Your task to perform on an android device: Add "usb-a" to the cart on ebay.com, then select checkout. Image 0: 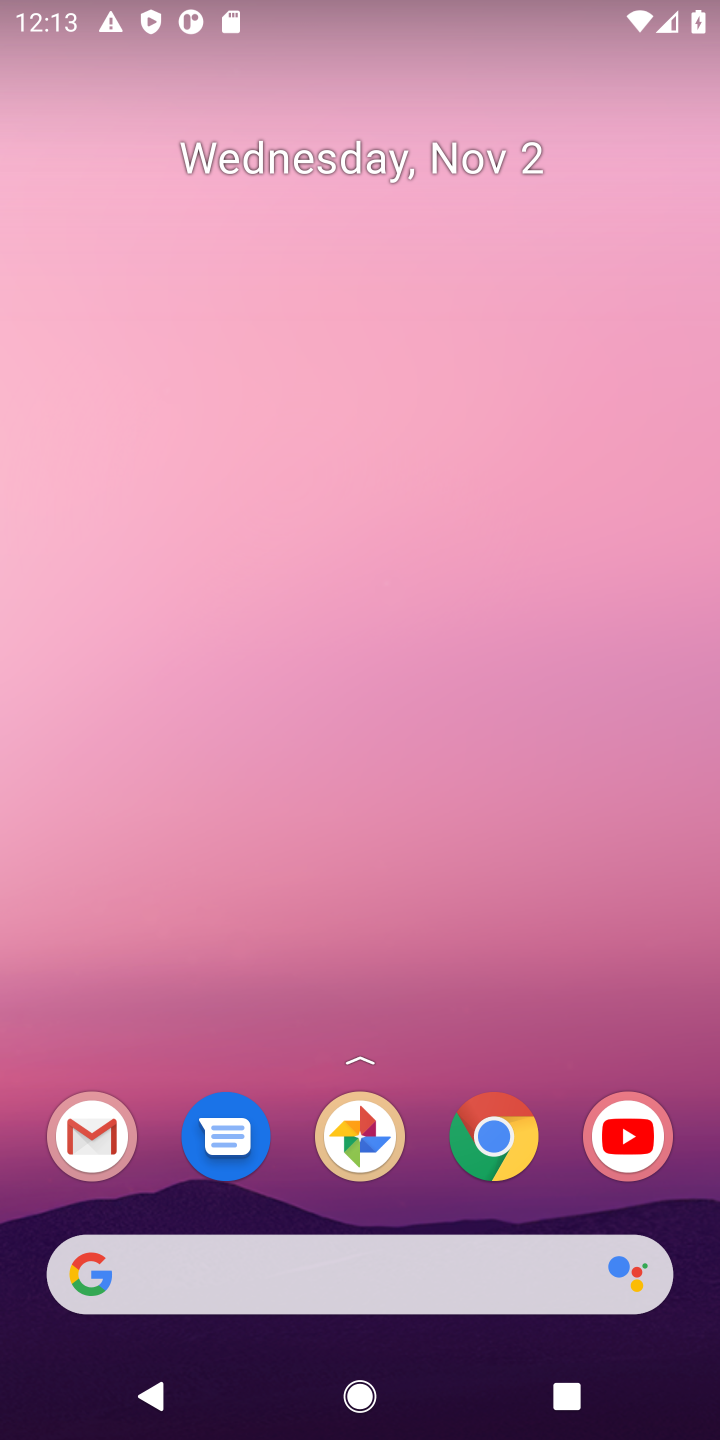
Step 0: click (465, 1134)
Your task to perform on an android device: Add "usb-a" to the cart on ebay.com, then select checkout. Image 1: 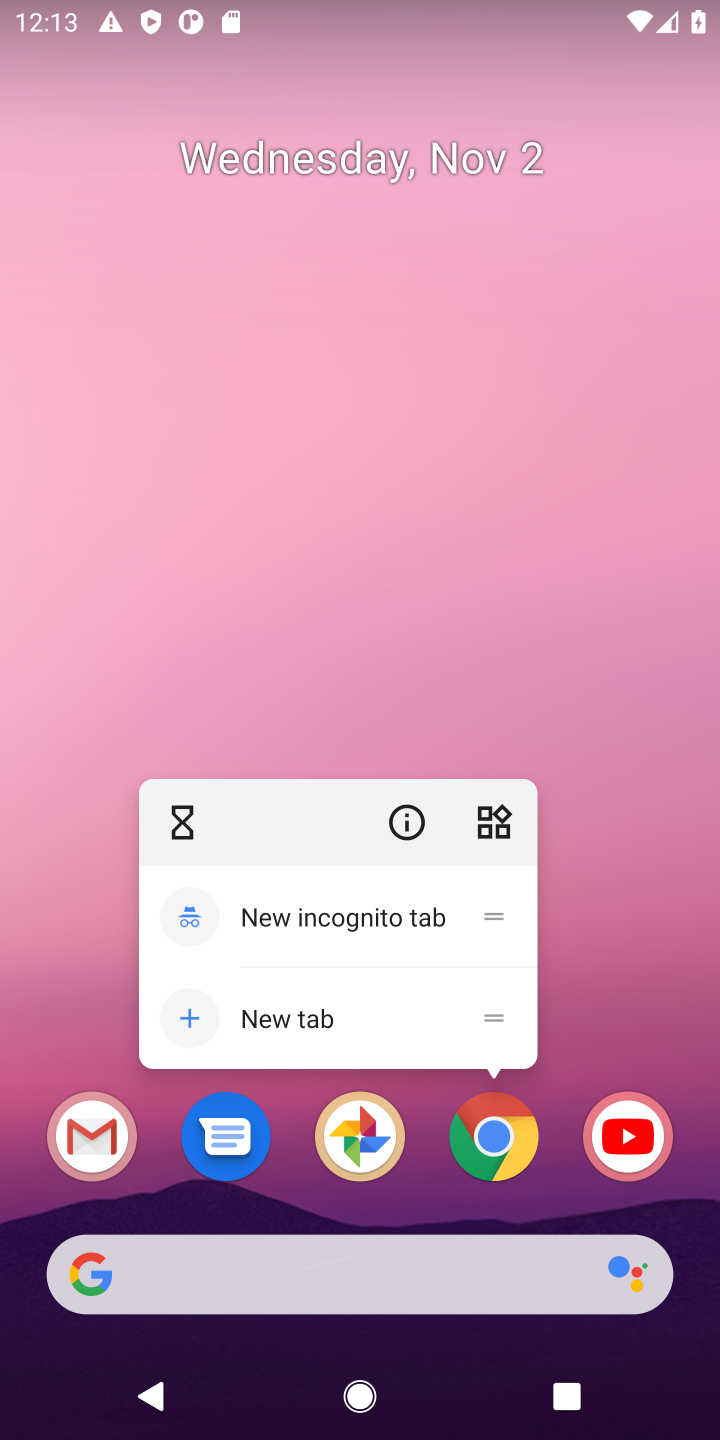
Step 1: click (485, 1140)
Your task to perform on an android device: Add "usb-a" to the cart on ebay.com, then select checkout. Image 2: 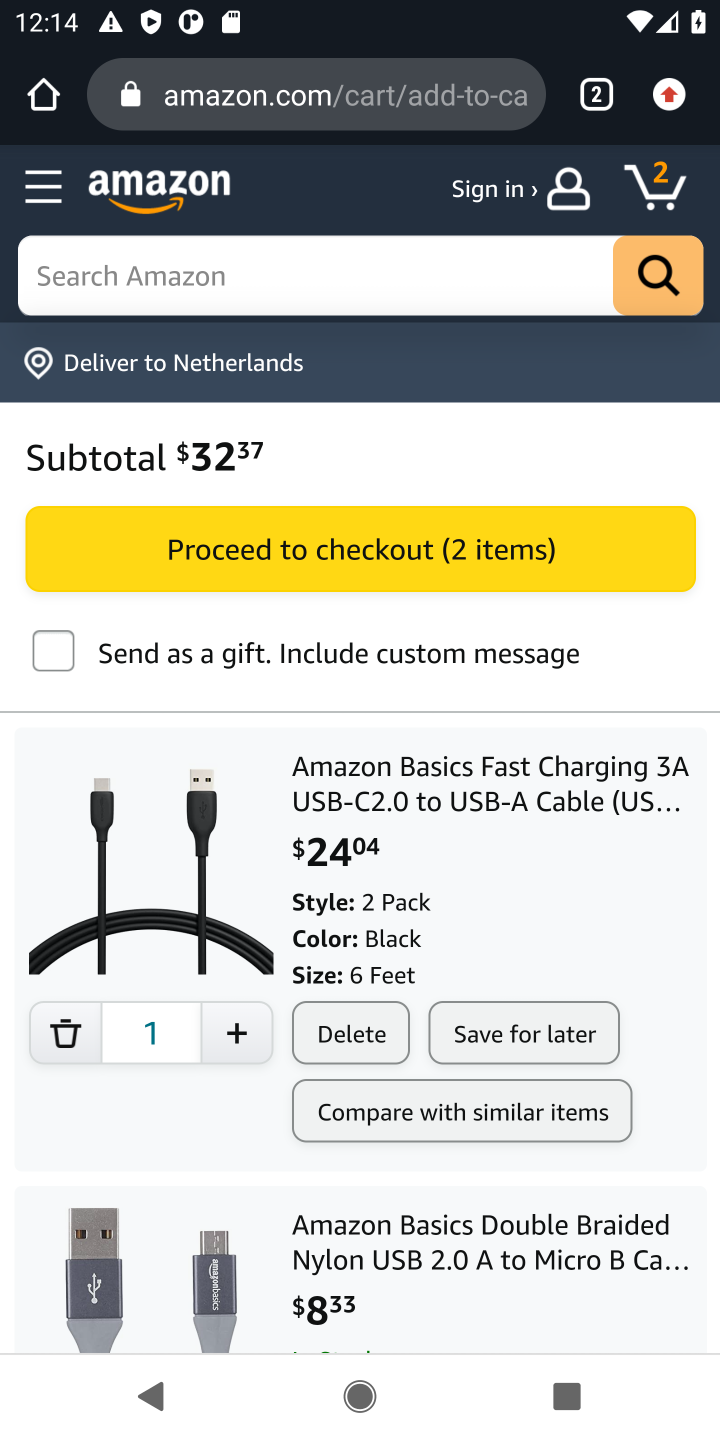
Step 2: click (244, 74)
Your task to perform on an android device: Add "usb-a" to the cart on ebay.com, then select checkout. Image 3: 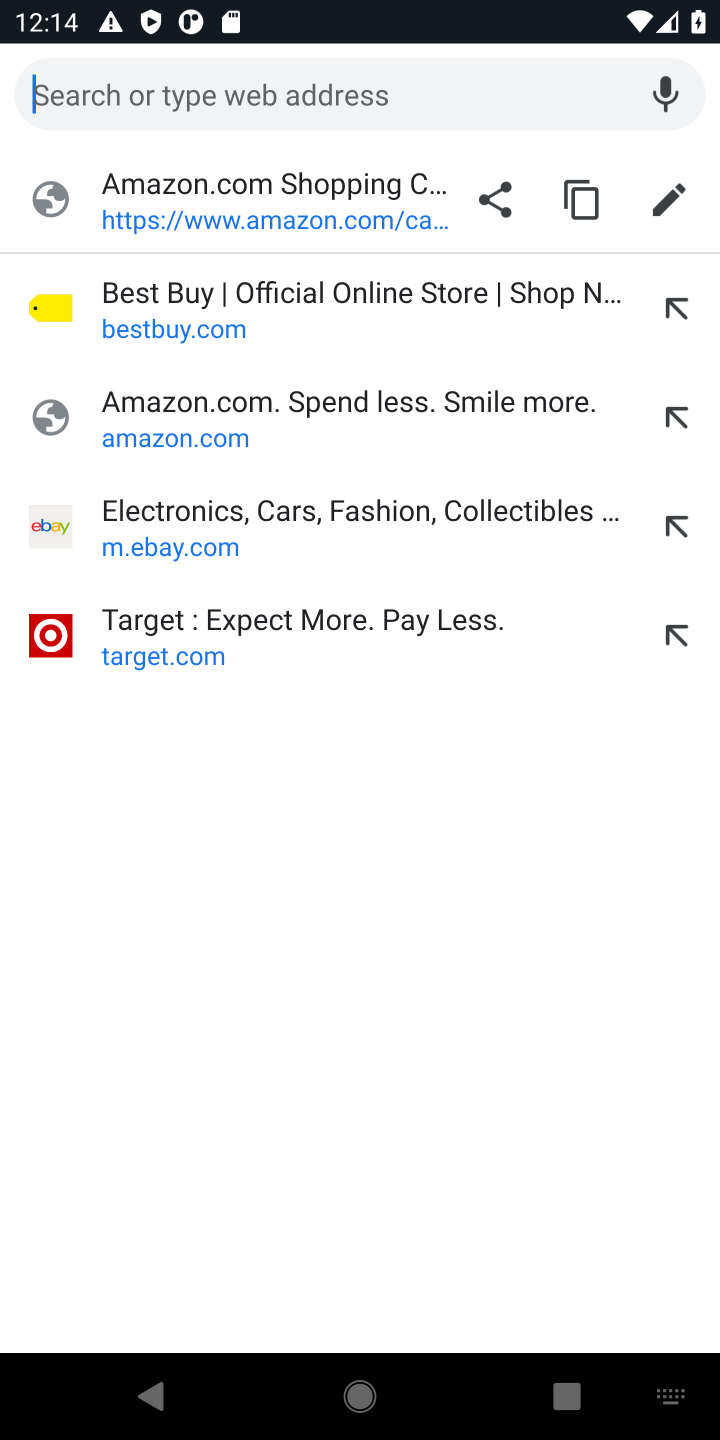
Step 3: click (250, 520)
Your task to perform on an android device: Add "usb-a" to the cart on ebay.com, then select checkout. Image 4: 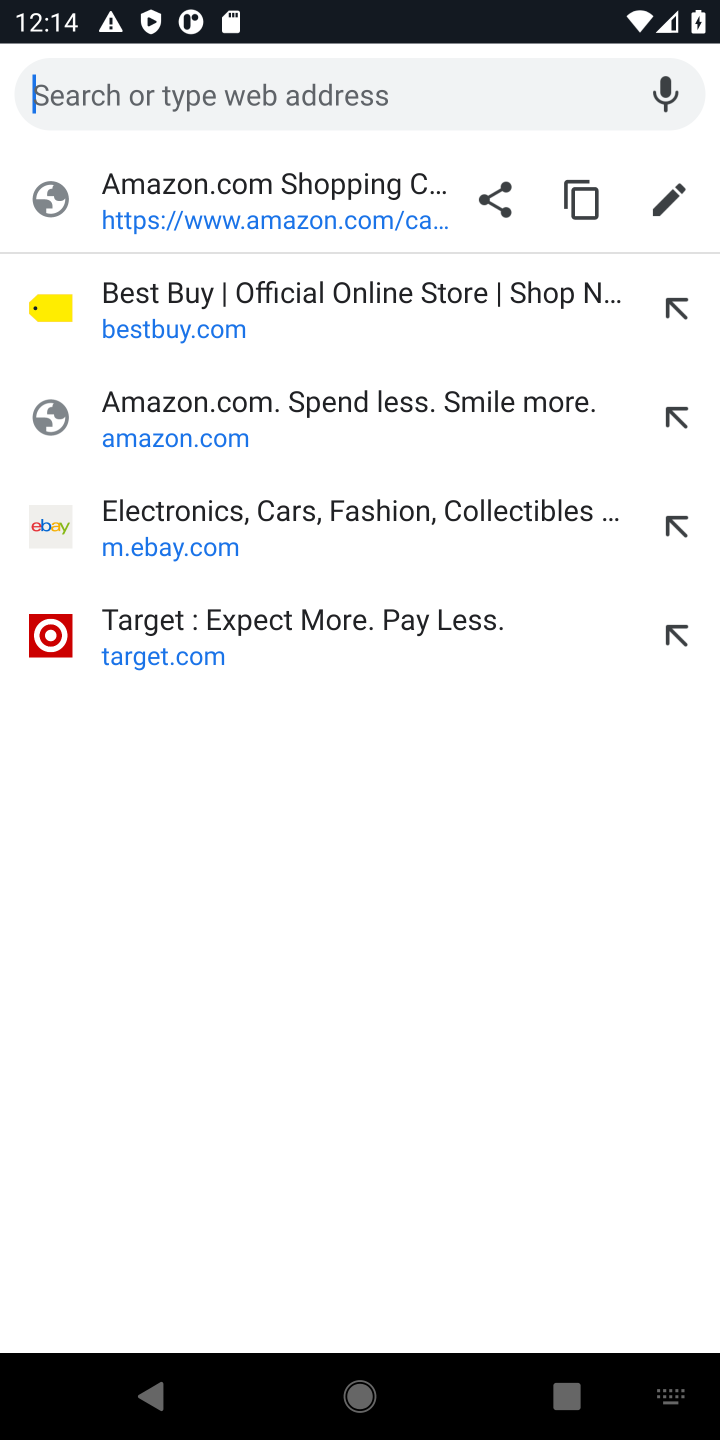
Step 4: type "ebay.com"
Your task to perform on an android device: Add "usb-a" to the cart on ebay.com, then select checkout. Image 5: 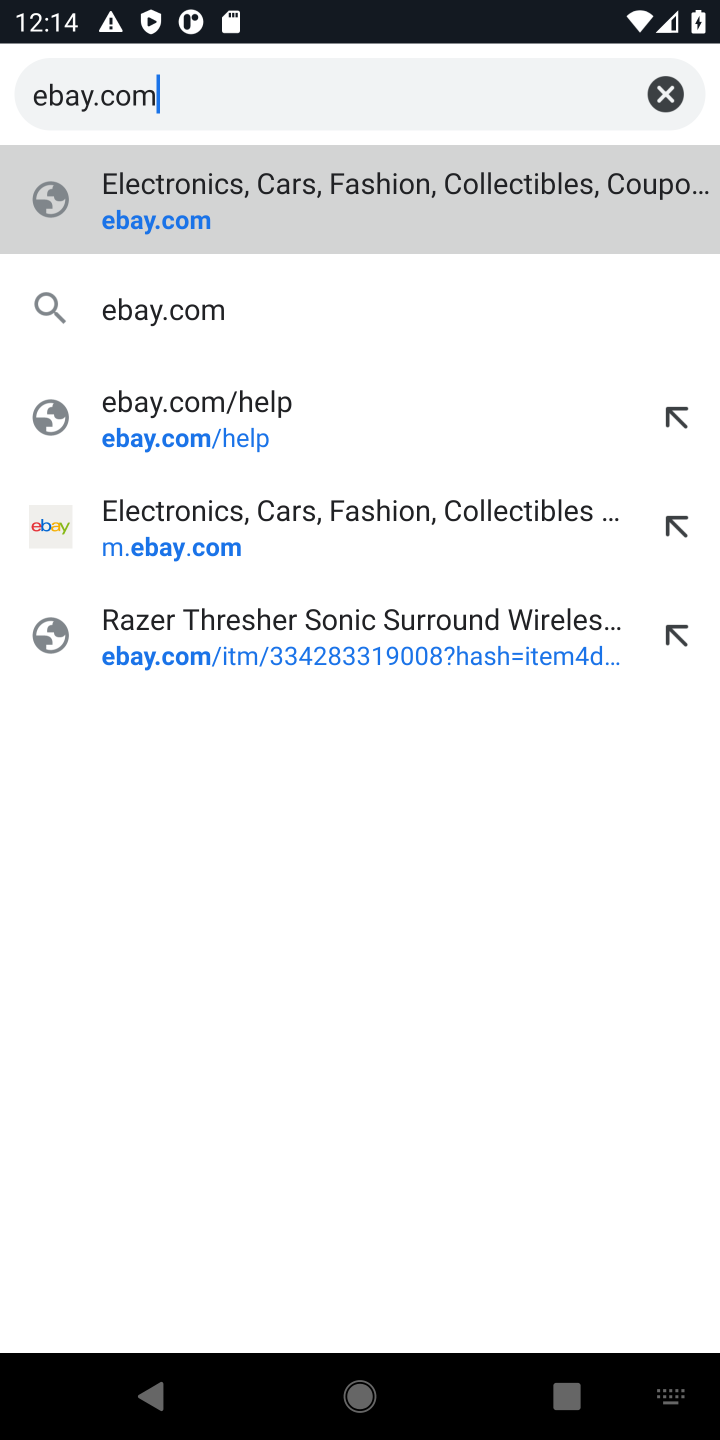
Step 5: click (390, 204)
Your task to perform on an android device: Add "usb-a" to the cart on ebay.com, then select checkout. Image 6: 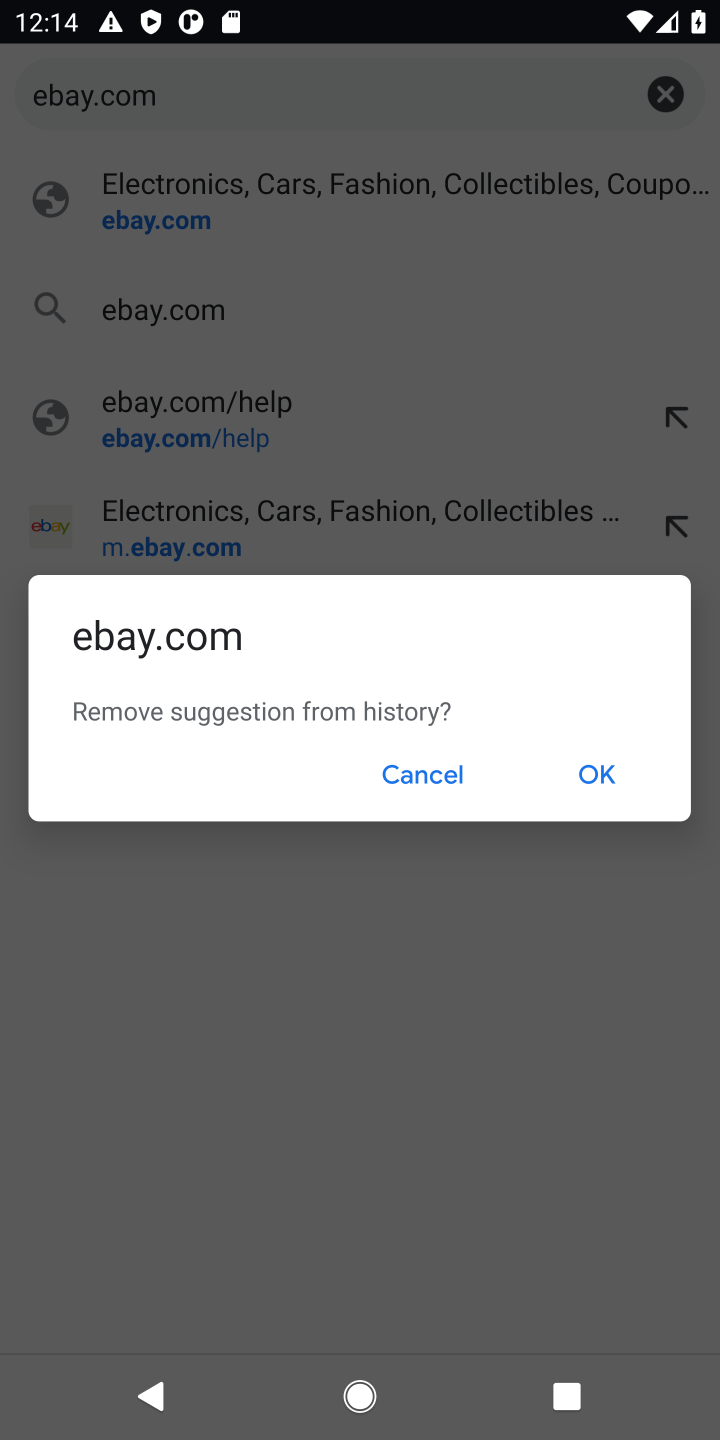
Step 6: click (548, 774)
Your task to perform on an android device: Add "usb-a" to the cart on ebay.com, then select checkout. Image 7: 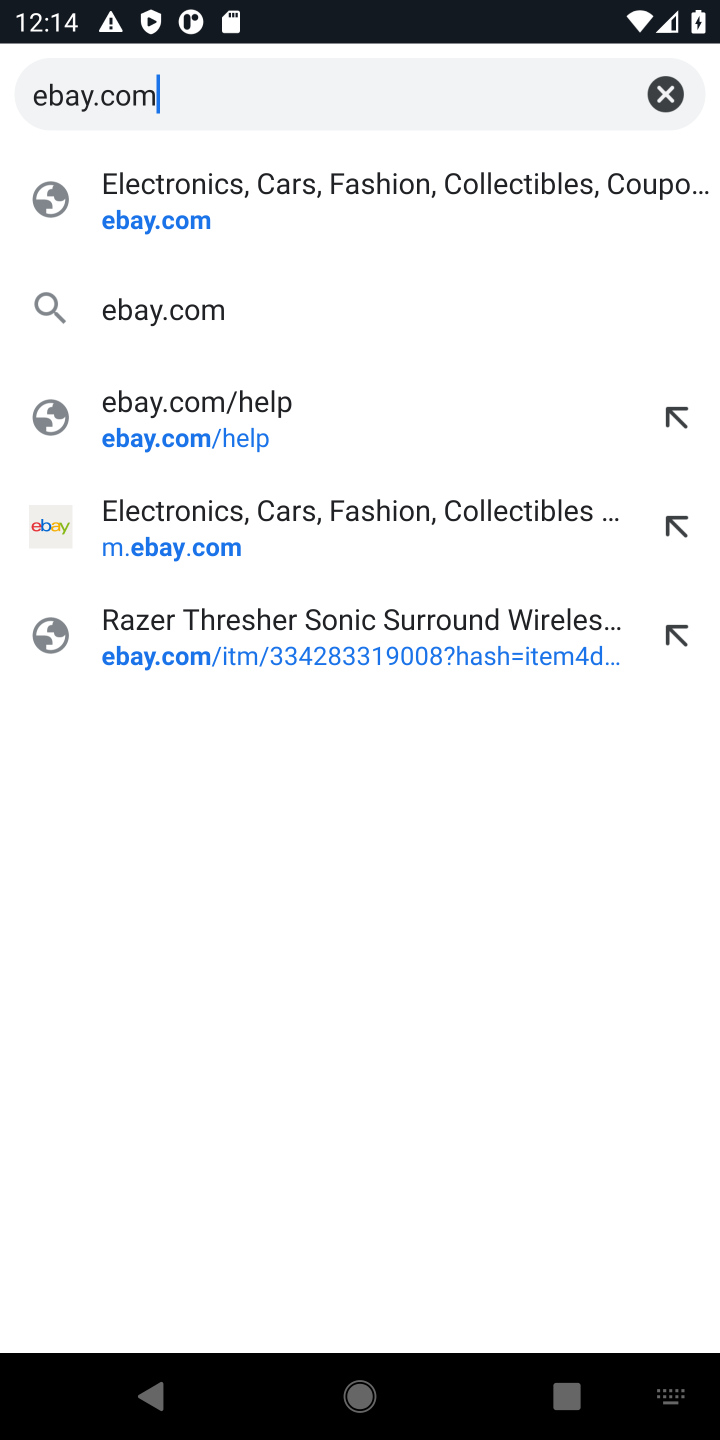
Step 7: click (205, 217)
Your task to perform on an android device: Add "usb-a" to the cart on ebay.com, then select checkout. Image 8: 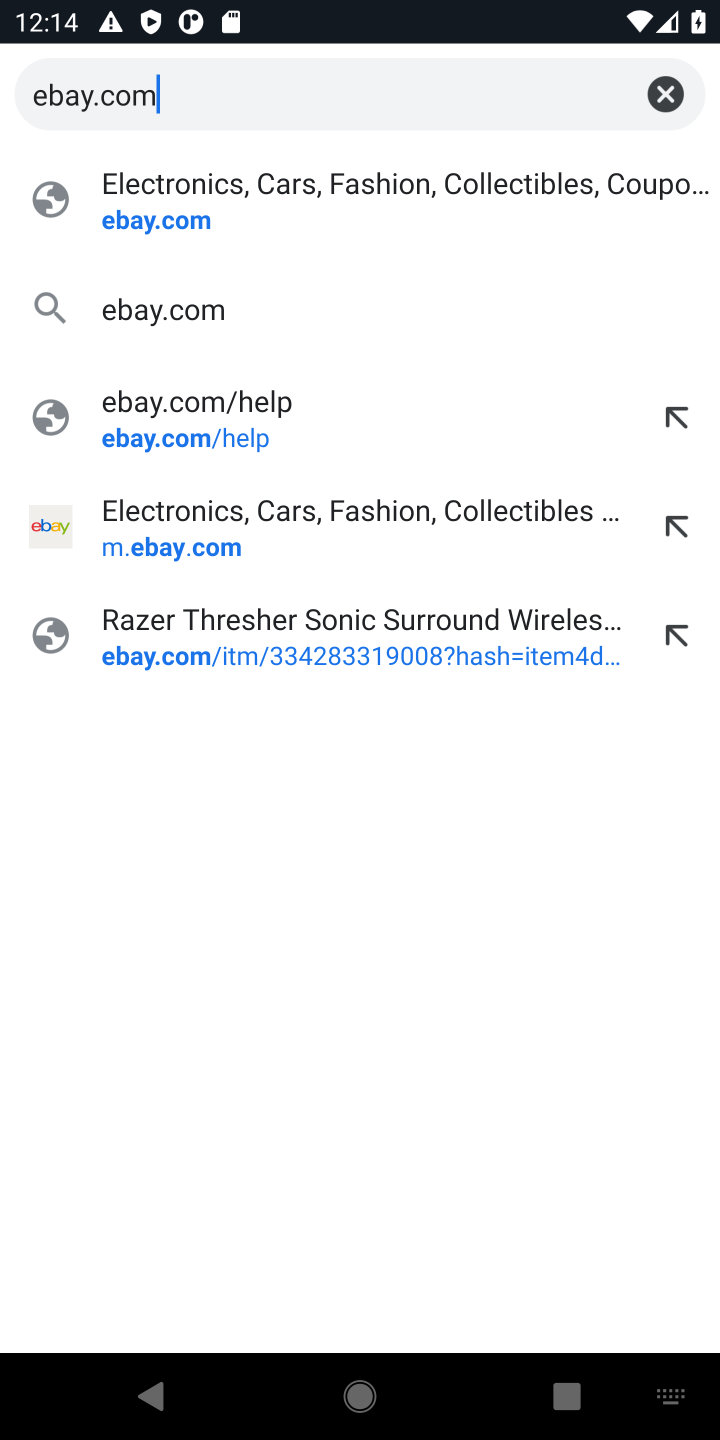
Step 8: press enter
Your task to perform on an android device: Add "usb-a" to the cart on ebay.com, then select checkout. Image 9: 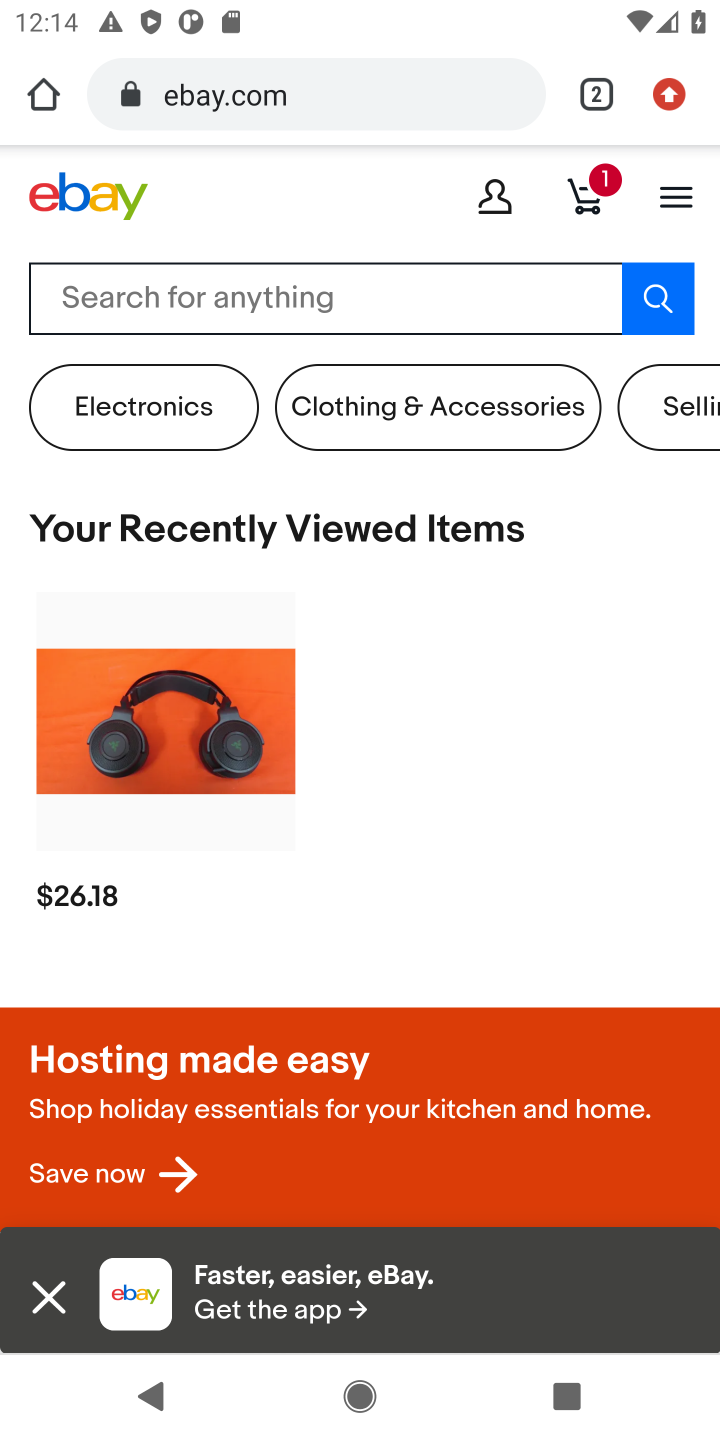
Step 9: click (33, 1291)
Your task to perform on an android device: Add "usb-a" to the cart on ebay.com, then select checkout. Image 10: 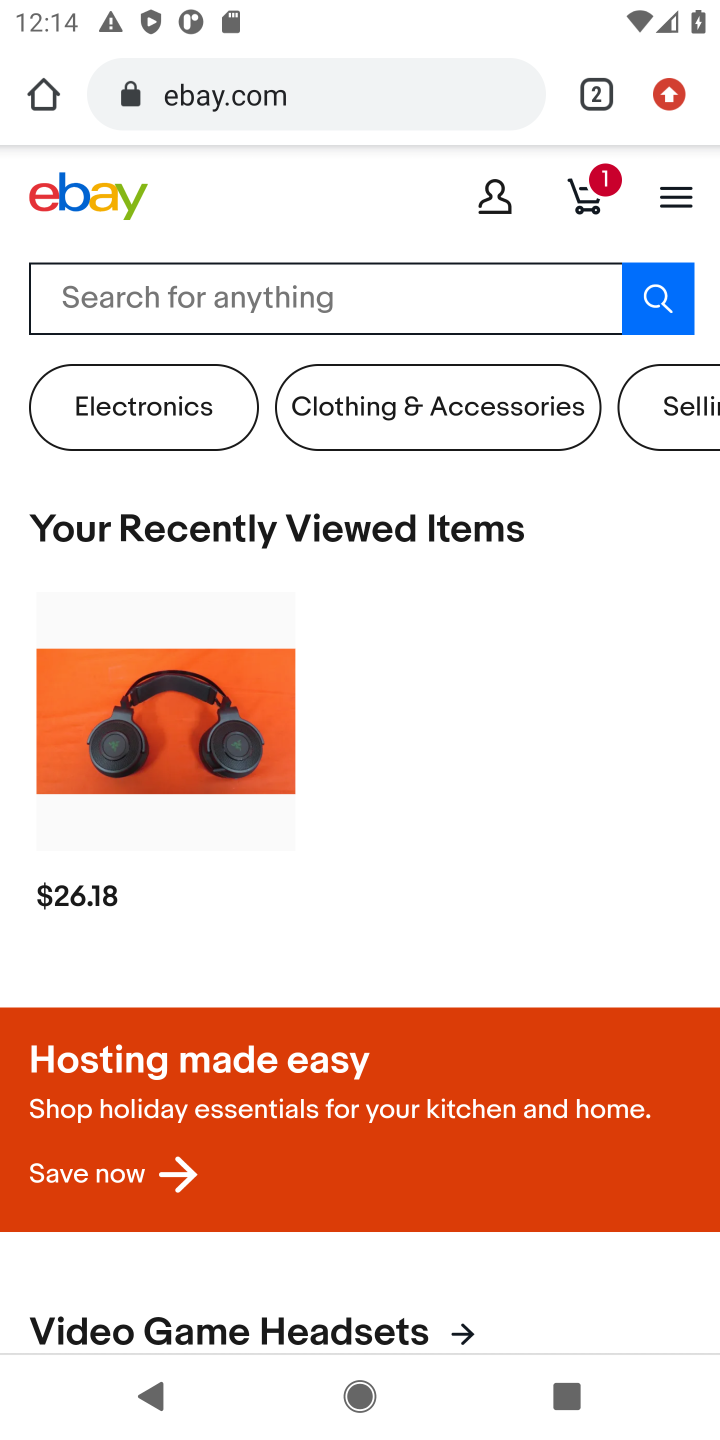
Step 10: click (294, 308)
Your task to perform on an android device: Add "usb-a" to the cart on ebay.com, then select checkout. Image 11: 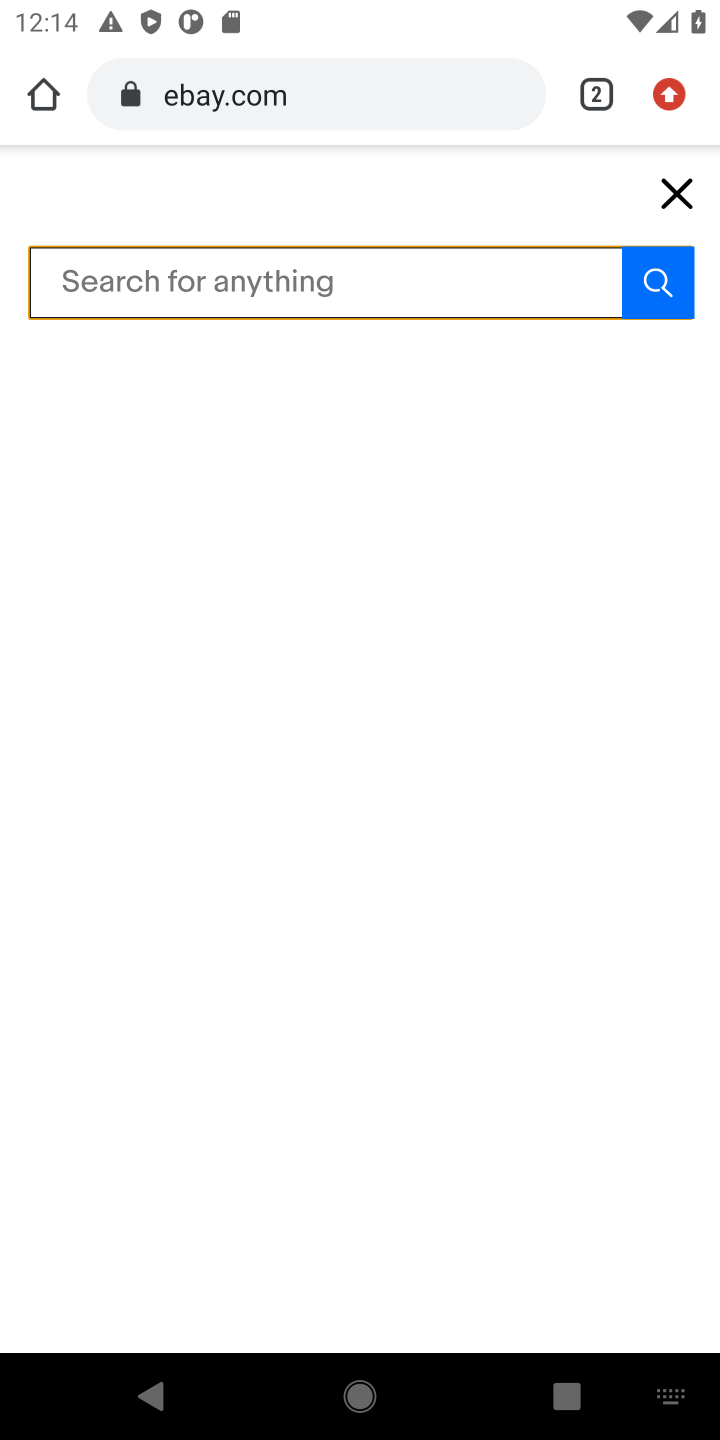
Step 11: type "usb-a"
Your task to perform on an android device: Add "usb-a" to the cart on ebay.com, then select checkout. Image 12: 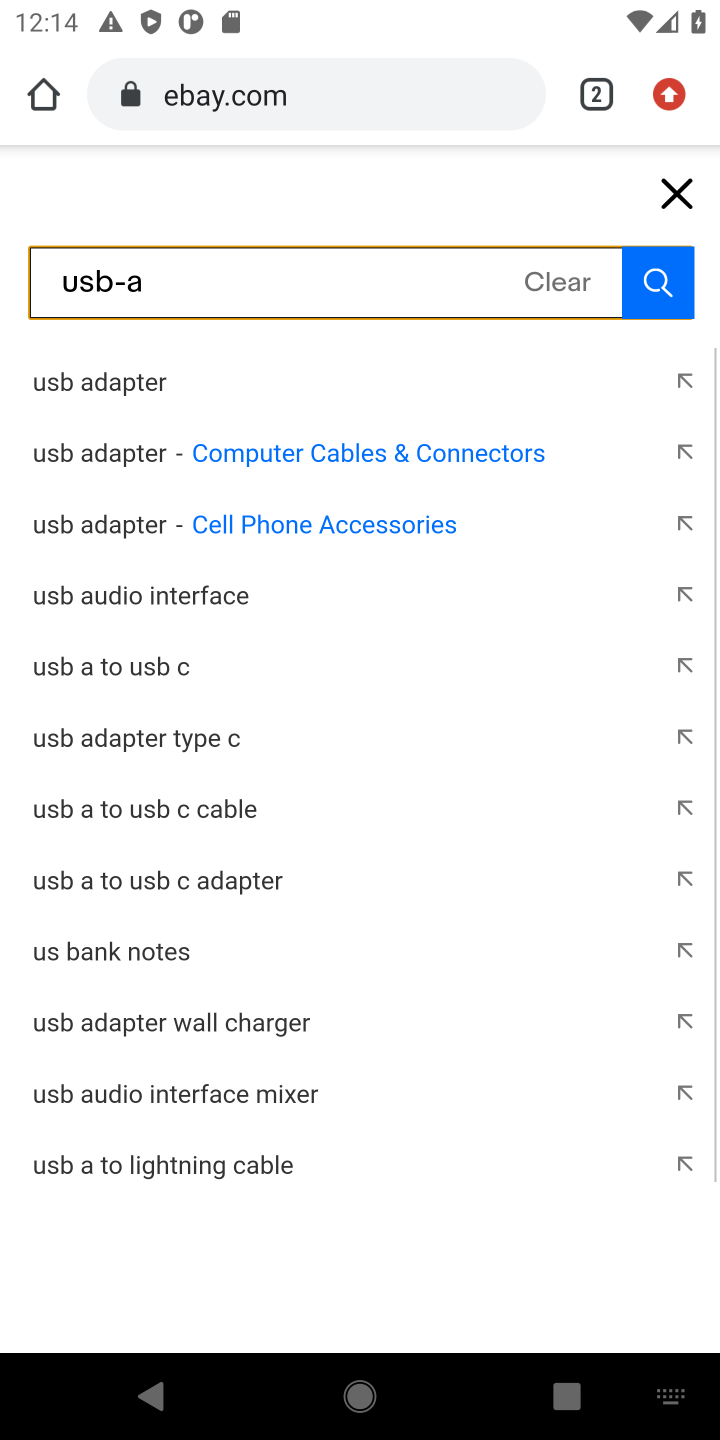
Step 12: type ""
Your task to perform on an android device: Add "usb-a" to the cart on ebay.com, then select checkout. Image 13: 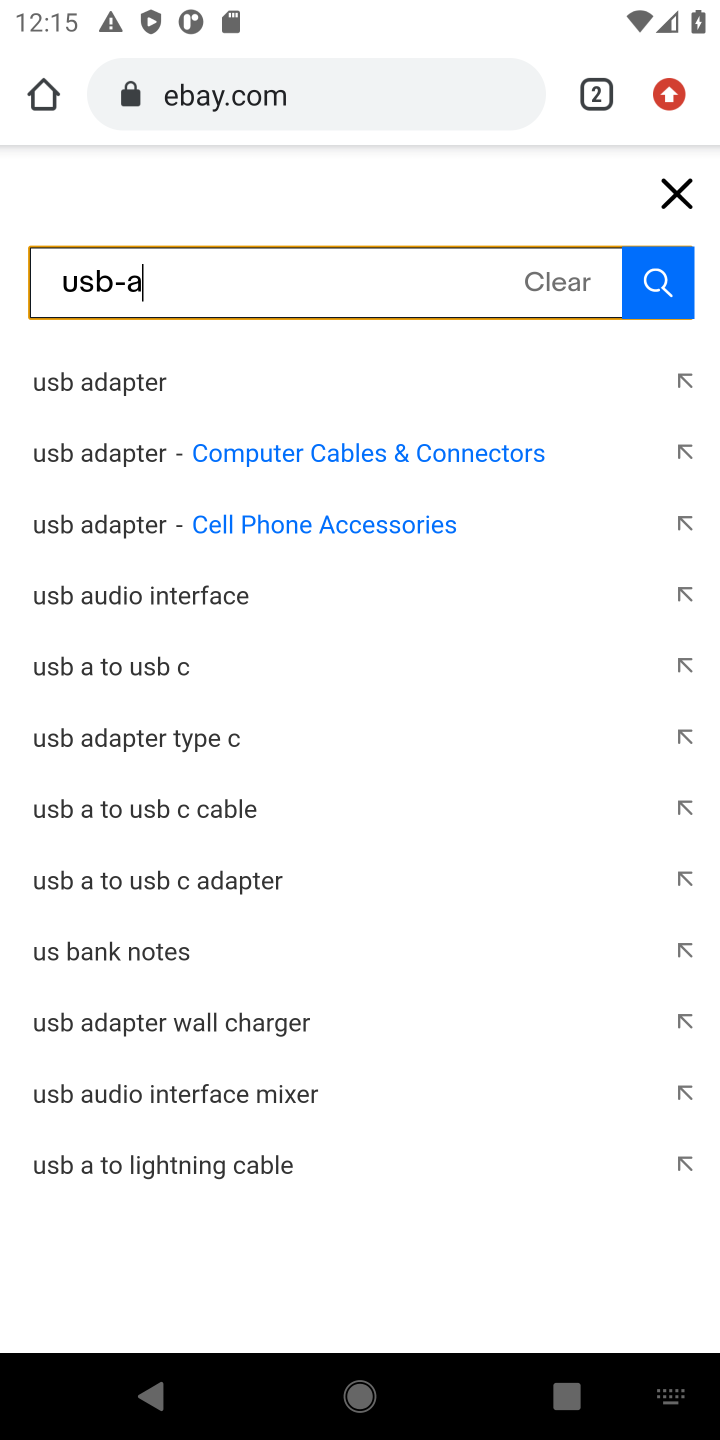
Step 13: click (676, 279)
Your task to perform on an android device: Add "usb-a" to the cart on ebay.com, then select checkout. Image 14: 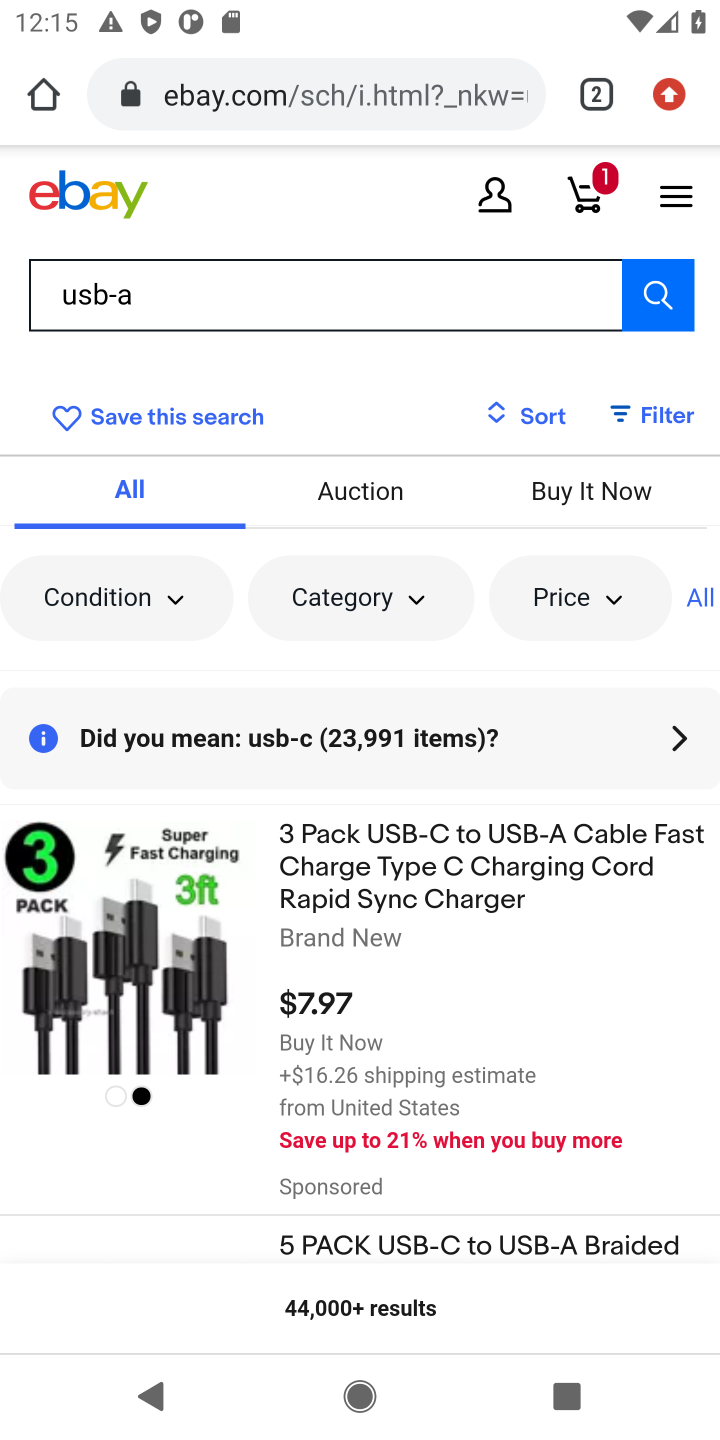
Step 14: drag from (488, 540) to (524, 314)
Your task to perform on an android device: Add "usb-a" to the cart on ebay.com, then select checkout. Image 15: 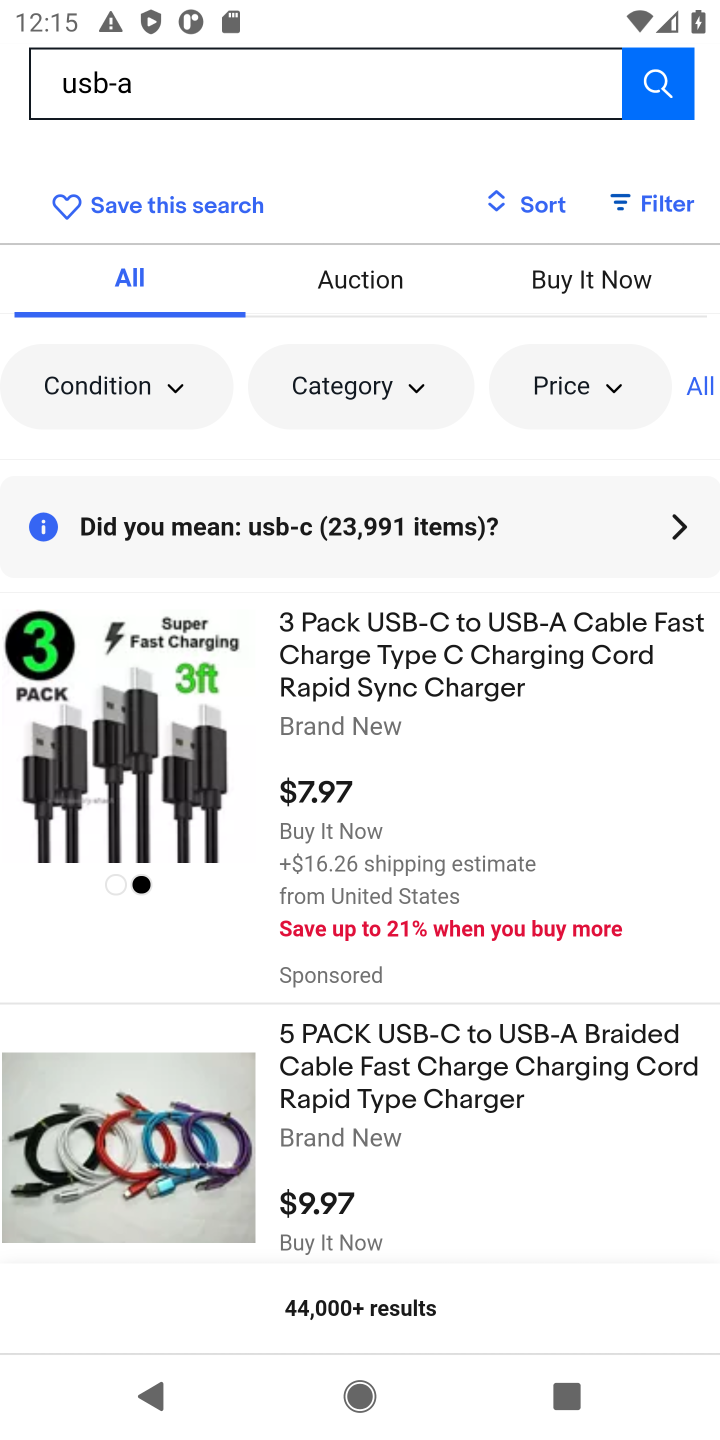
Step 15: click (417, 642)
Your task to perform on an android device: Add "usb-a" to the cart on ebay.com, then select checkout. Image 16: 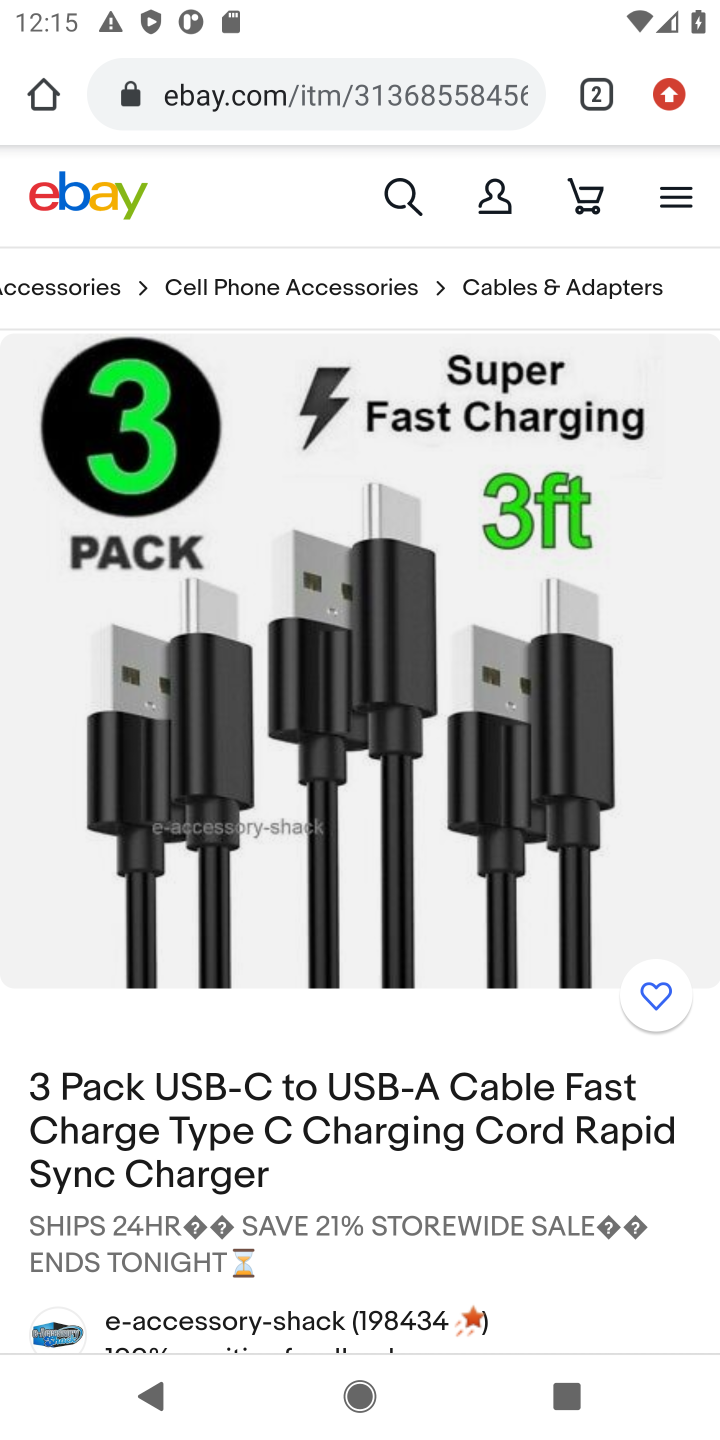
Step 16: drag from (413, 916) to (471, 395)
Your task to perform on an android device: Add "usb-a" to the cart on ebay.com, then select checkout. Image 17: 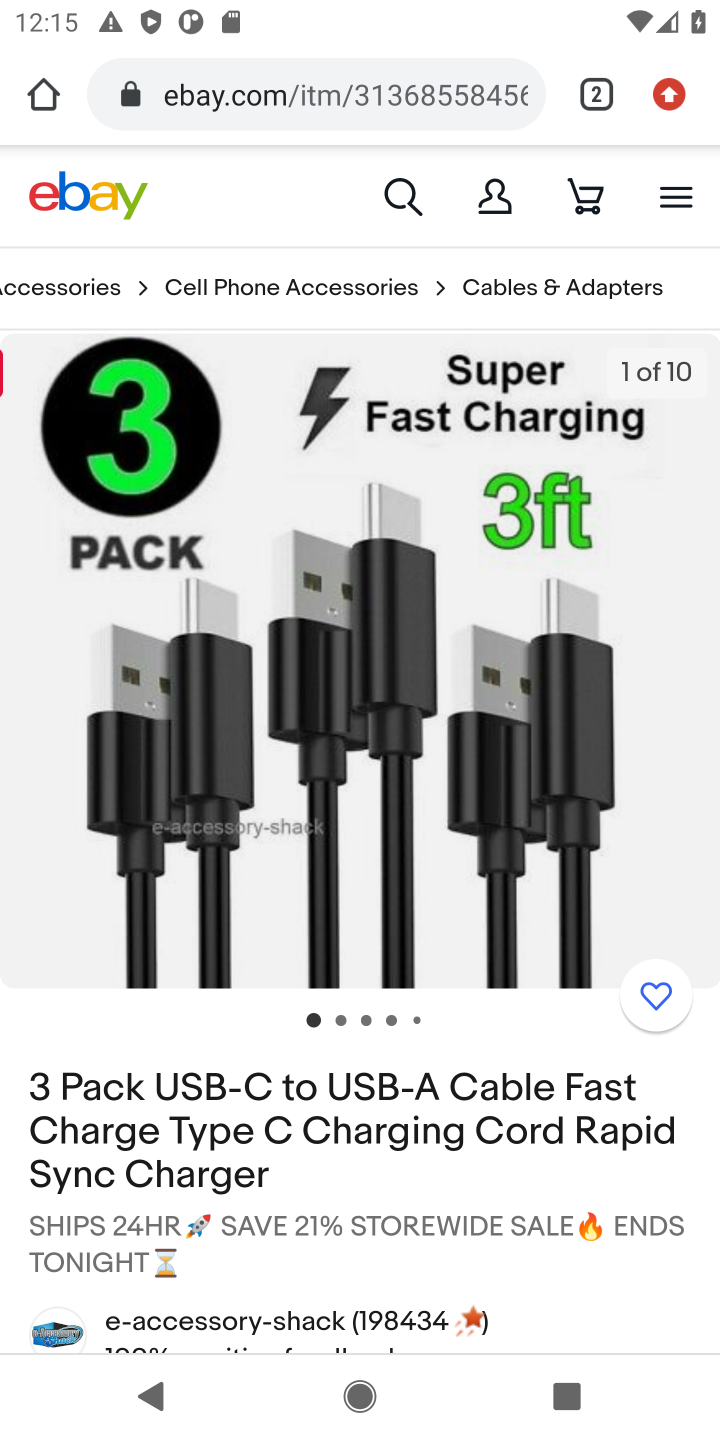
Step 17: drag from (473, 603) to (365, 483)
Your task to perform on an android device: Add "usb-a" to the cart on ebay.com, then select checkout. Image 18: 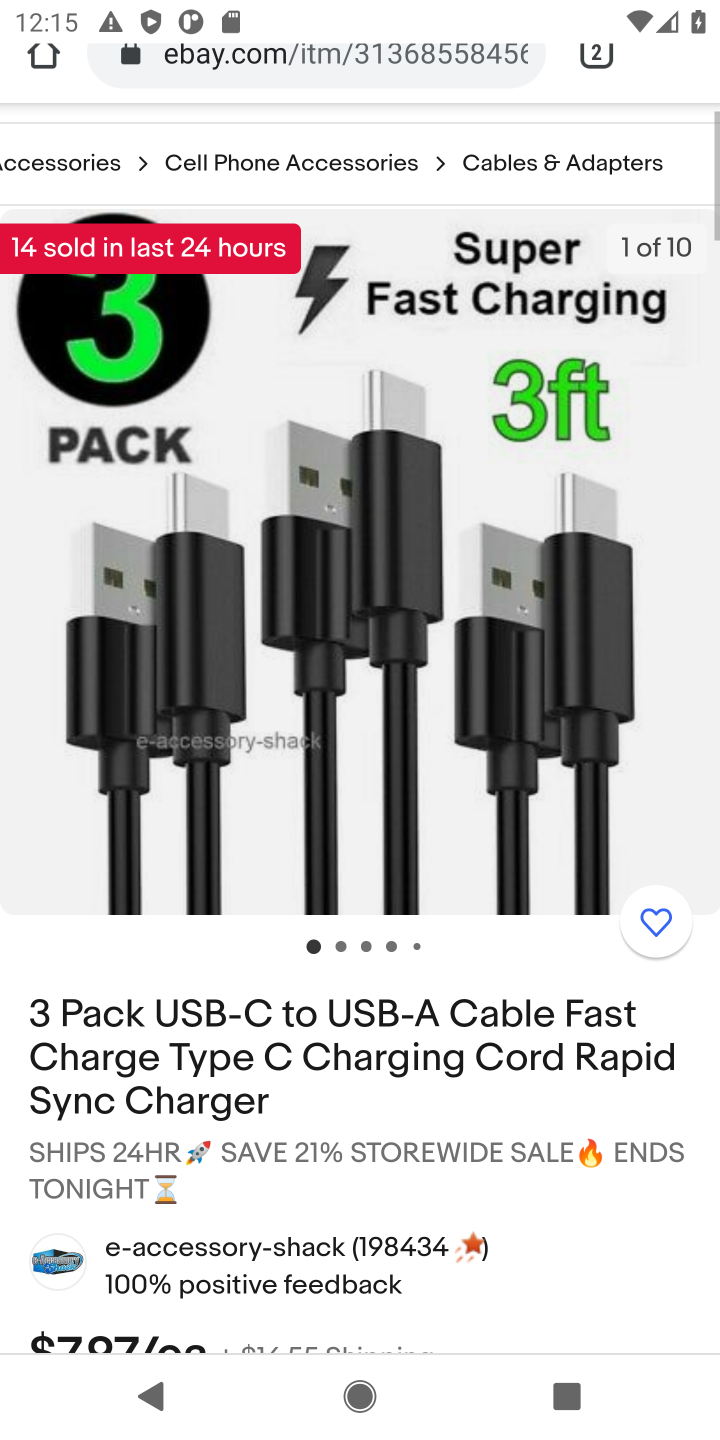
Step 18: drag from (312, 707) to (339, 436)
Your task to perform on an android device: Add "usb-a" to the cart on ebay.com, then select checkout. Image 19: 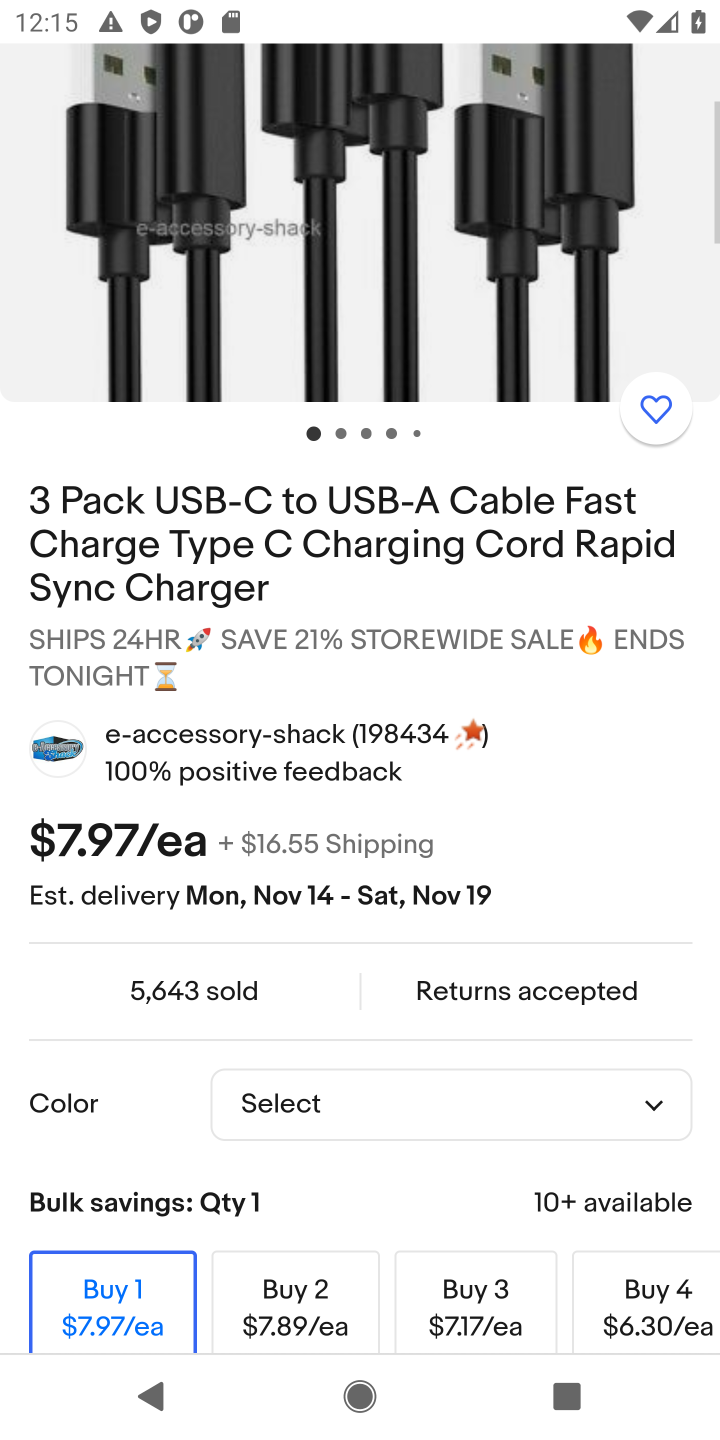
Step 19: click (349, 557)
Your task to perform on an android device: Add "usb-a" to the cart on ebay.com, then select checkout. Image 20: 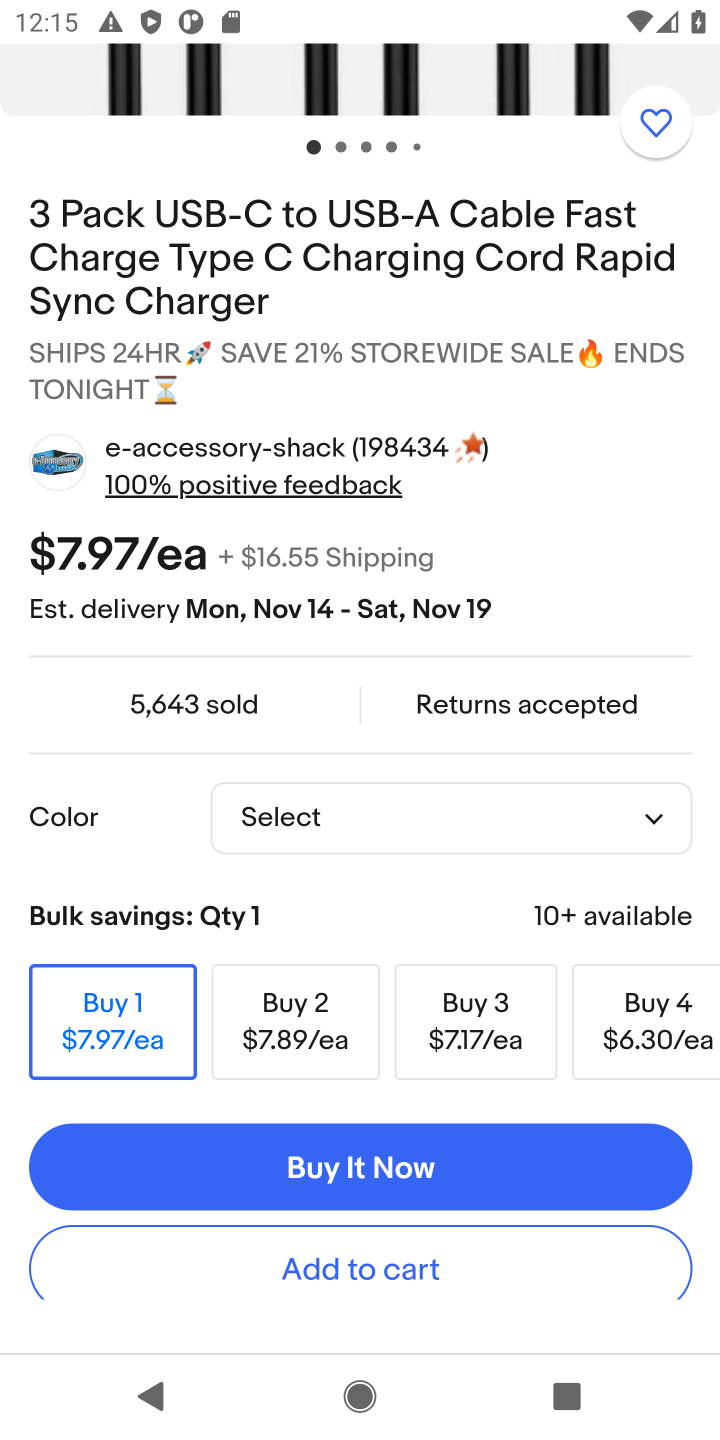
Step 20: click (354, 1168)
Your task to perform on an android device: Add "usb-a" to the cart on ebay.com, then select checkout. Image 21: 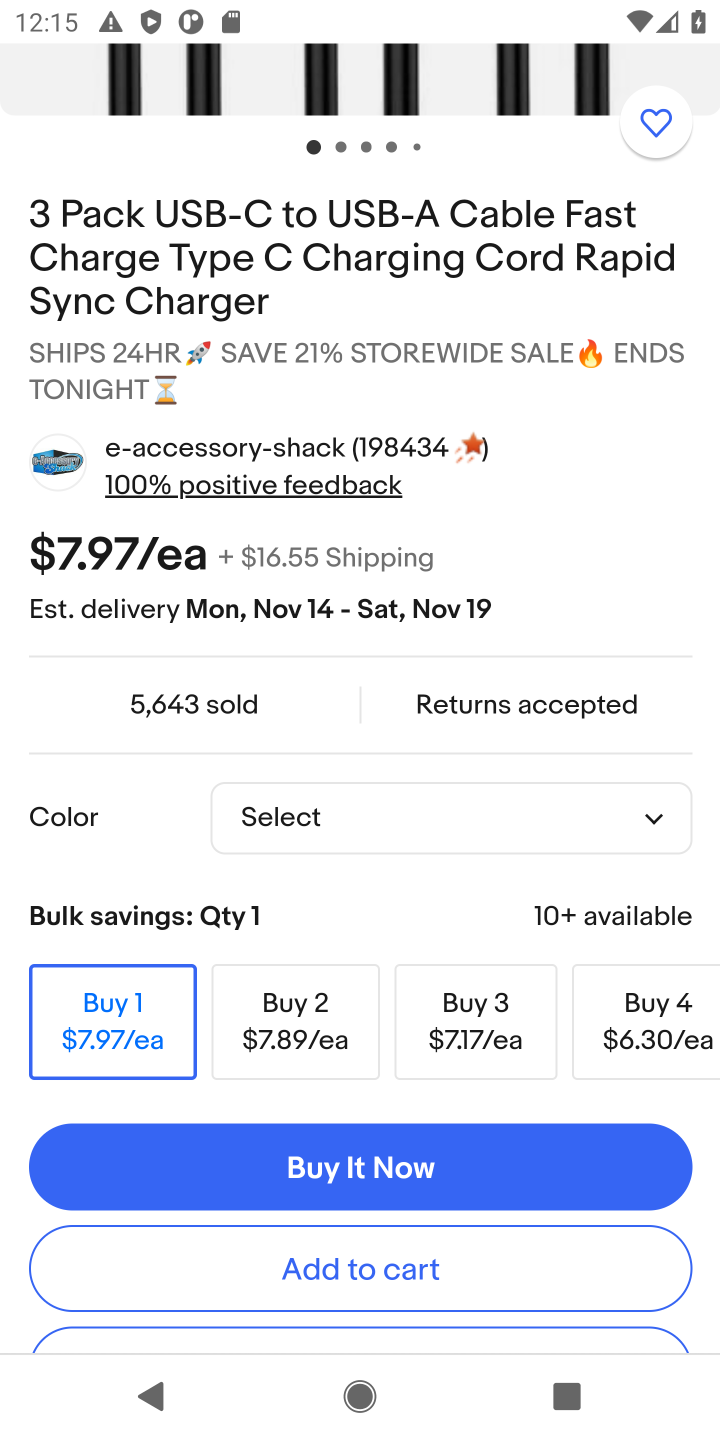
Step 21: click (352, 1275)
Your task to perform on an android device: Add "usb-a" to the cart on ebay.com, then select checkout. Image 22: 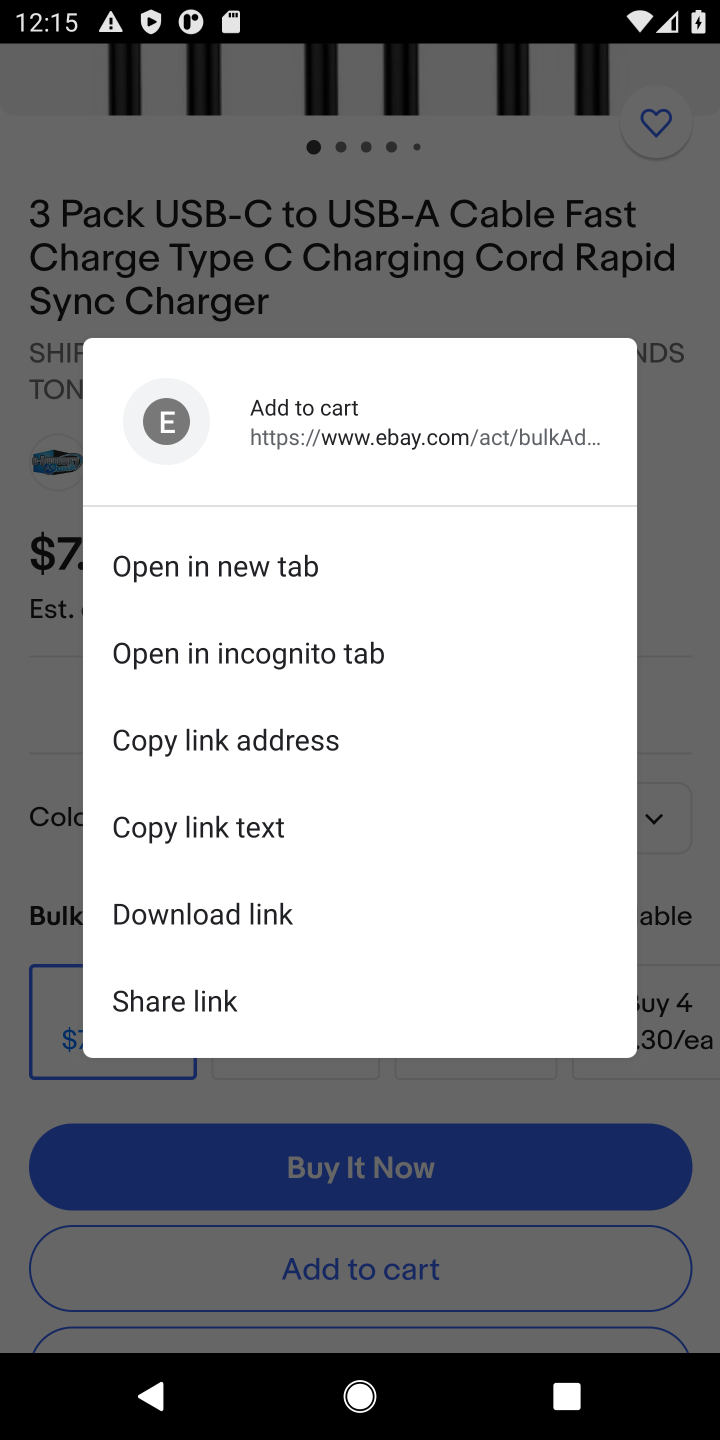
Step 22: click (394, 1252)
Your task to perform on an android device: Add "usb-a" to the cart on ebay.com, then select checkout. Image 23: 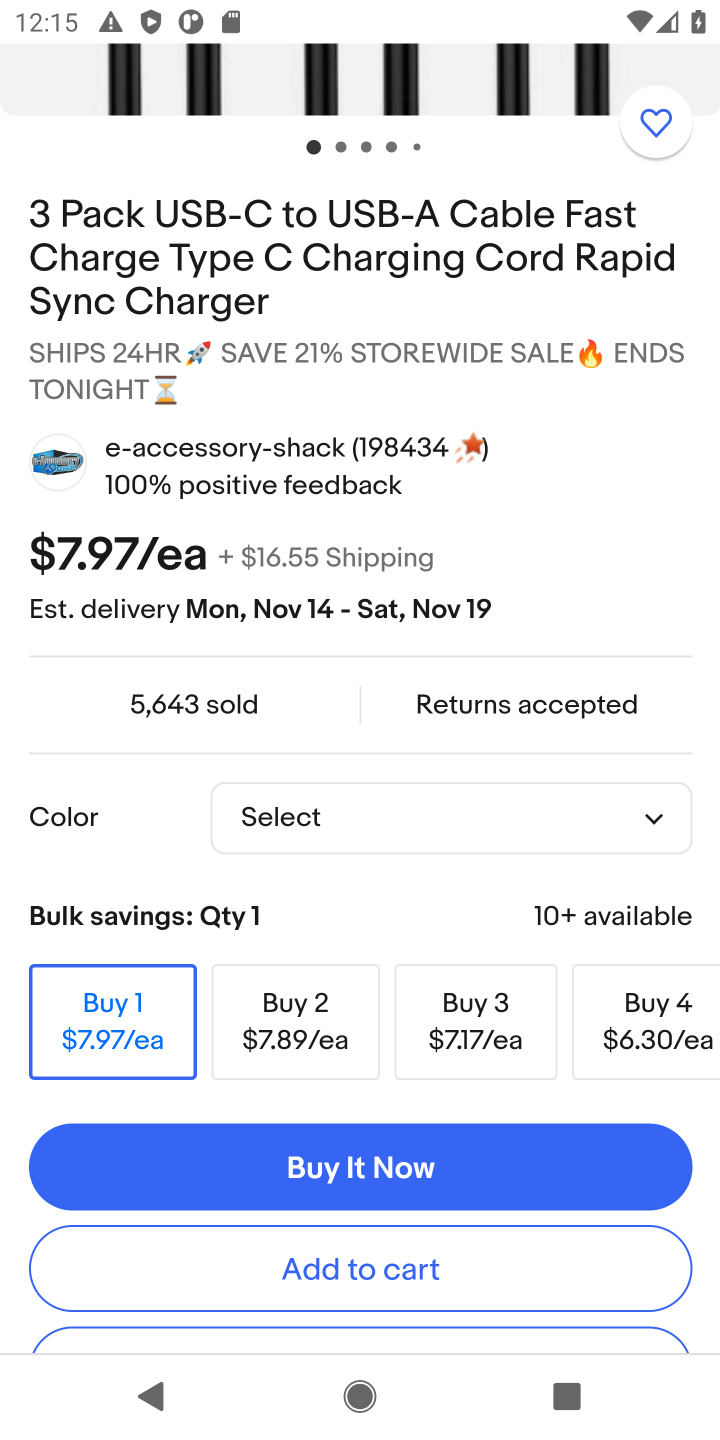
Step 23: click (395, 1259)
Your task to perform on an android device: Add "usb-a" to the cart on ebay.com, then select checkout. Image 24: 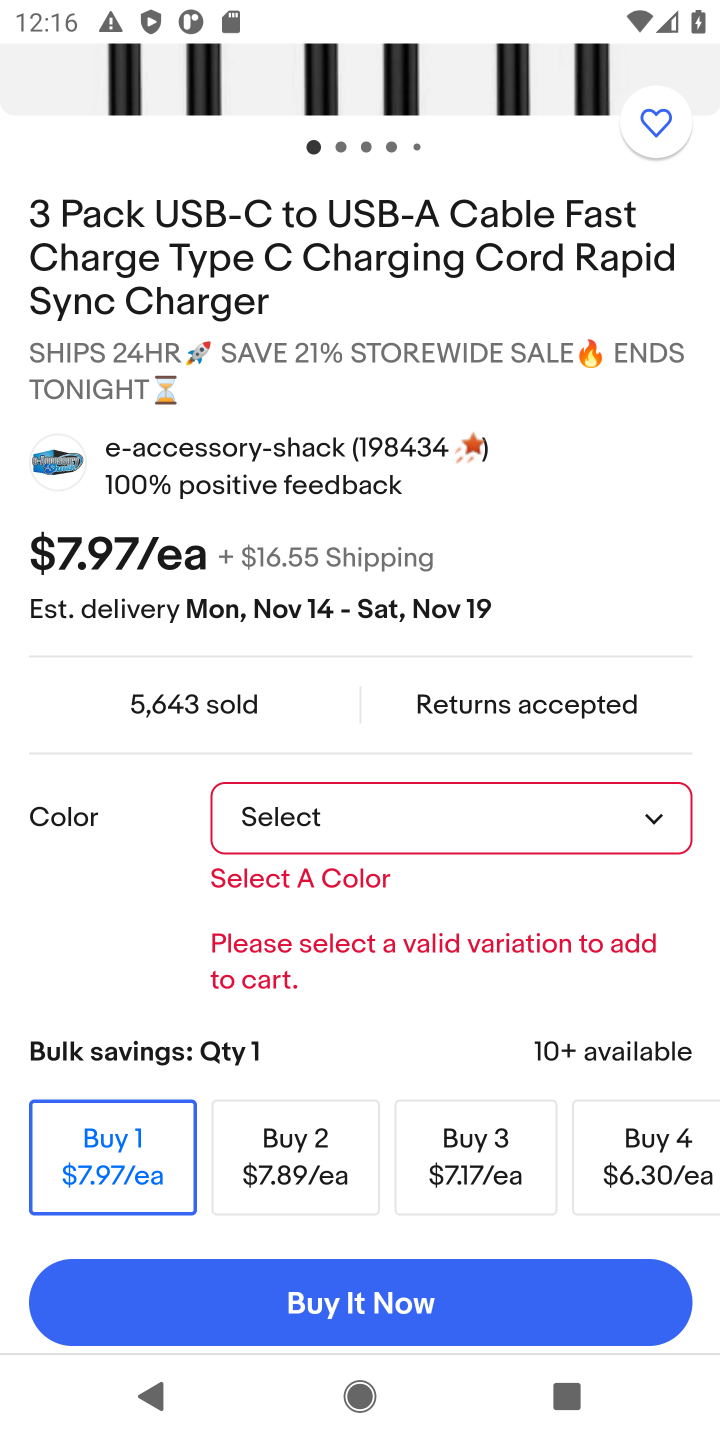
Step 24: drag from (524, 596) to (528, 1022)
Your task to perform on an android device: Add "usb-a" to the cart on ebay.com, then select checkout. Image 25: 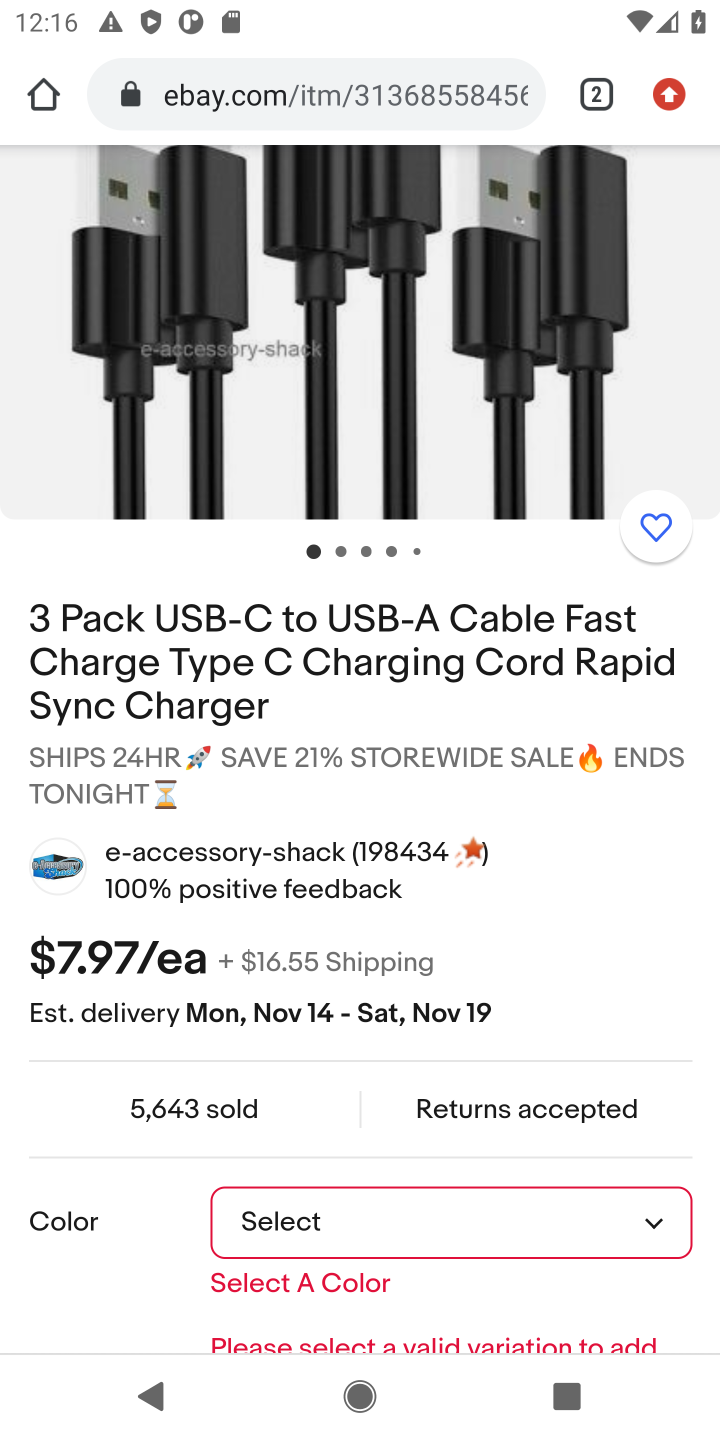
Step 25: click (425, 1246)
Your task to perform on an android device: Add "usb-a" to the cart on ebay.com, then select checkout. Image 26: 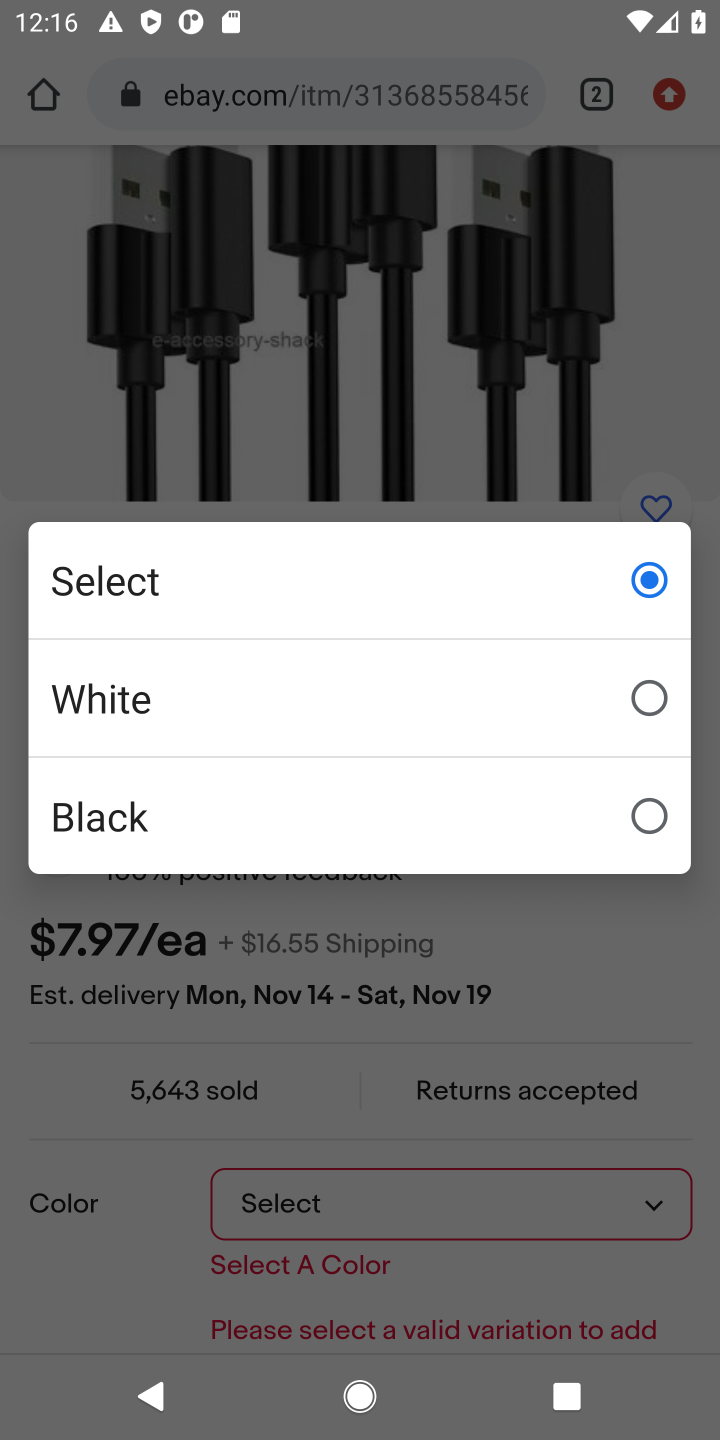
Step 26: click (429, 1198)
Your task to perform on an android device: Add "usb-a" to the cart on ebay.com, then select checkout. Image 27: 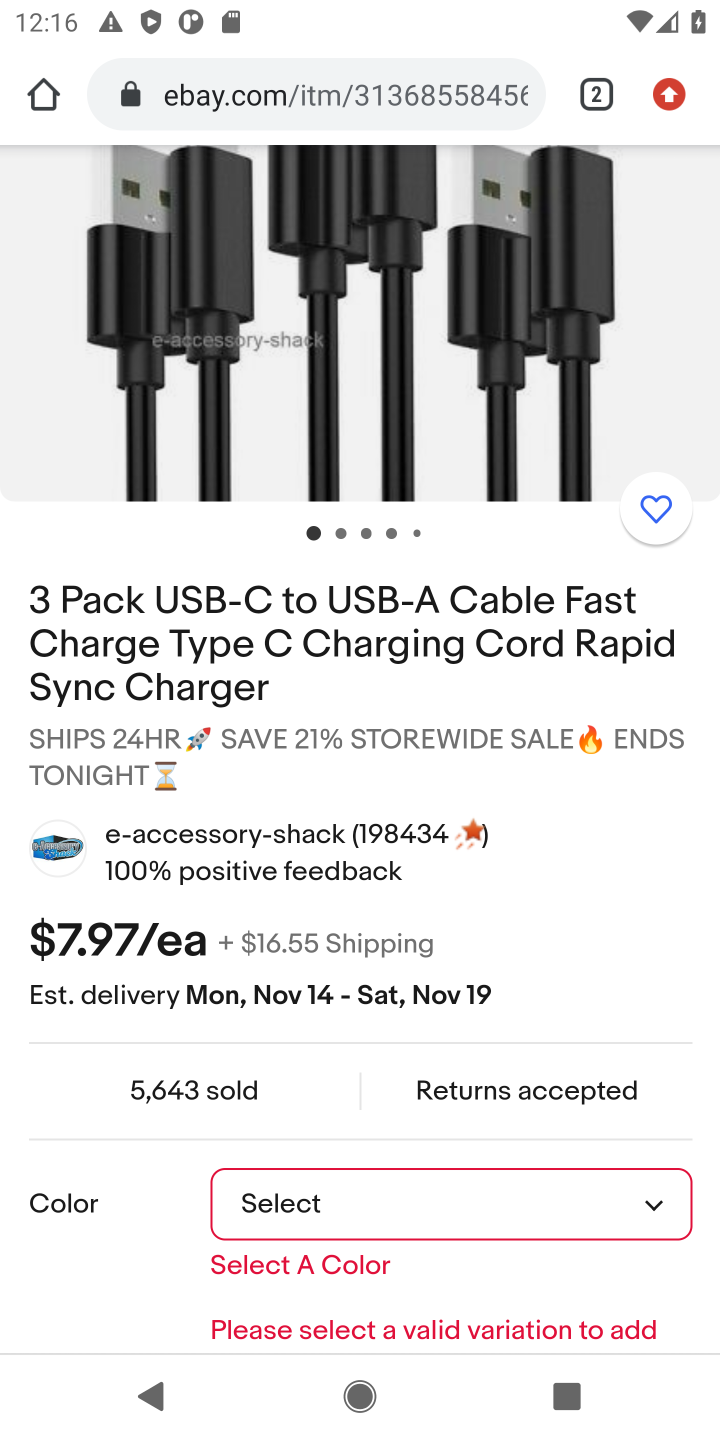
Step 27: click (612, 795)
Your task to perform on an android device: Add "usb-a" to the cart on ebay.com, then select checkout. Image 28: 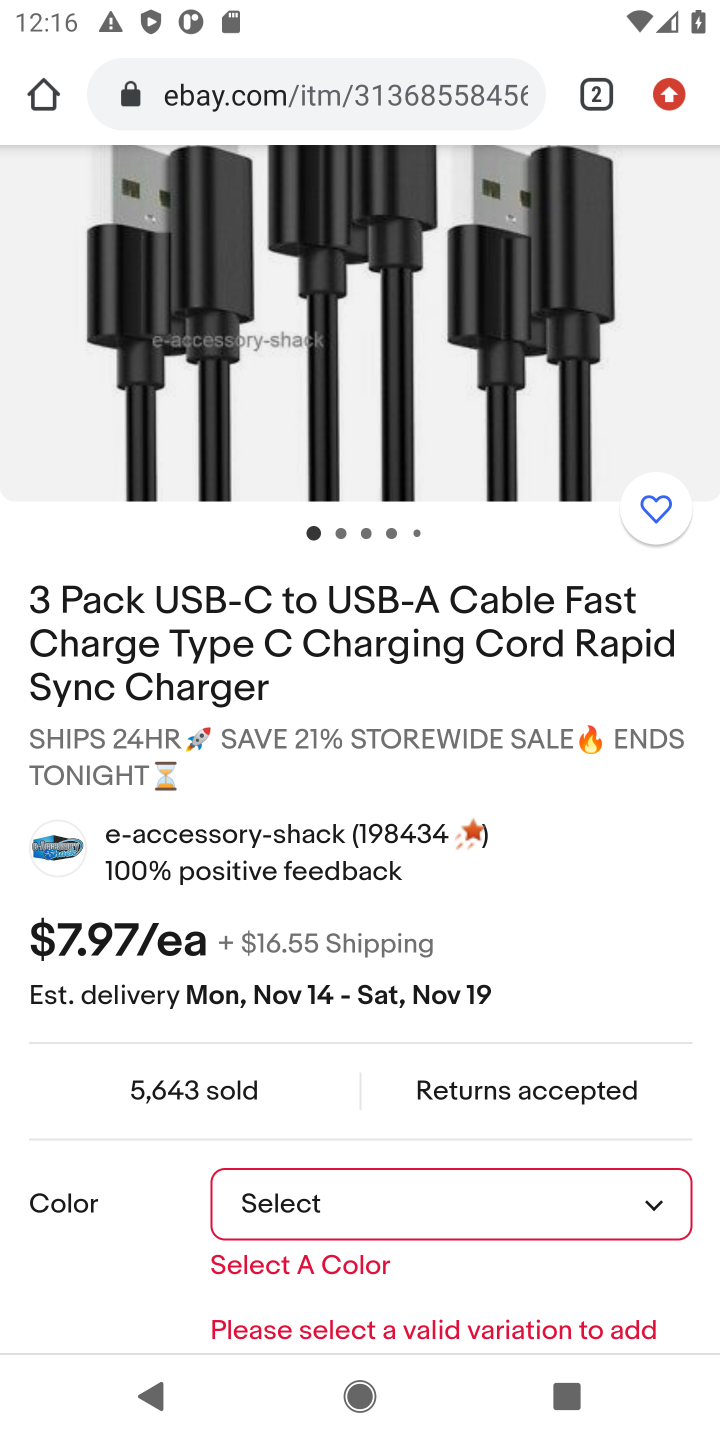
Step 28: click (538, 1168)
Your task to perform on an android device: Add "usb-a" to the cart on ebay.com, then select checkout. Image 29: 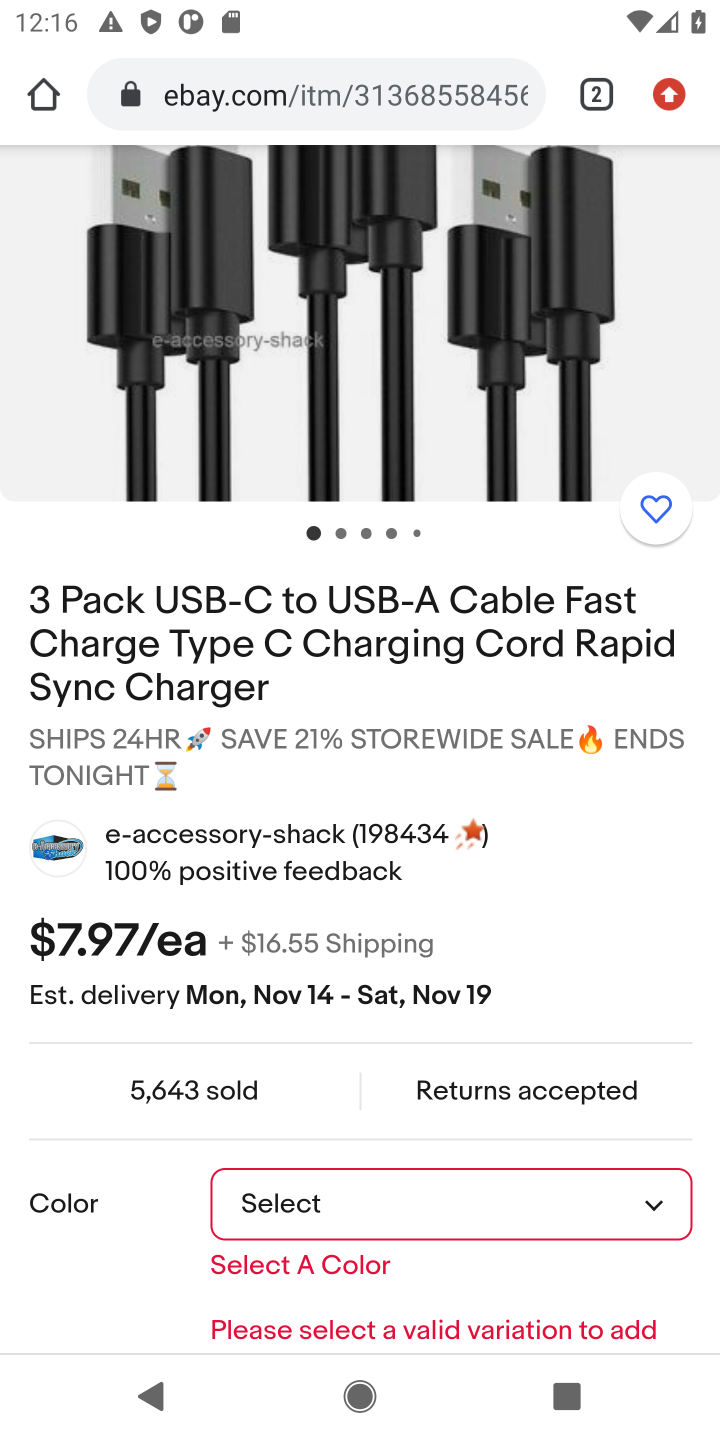
Step 29: click (602, 1214)
Your task to perform on an android device: Add "usb-a" to the cart on ebay.com, then select checkout. Image 30: 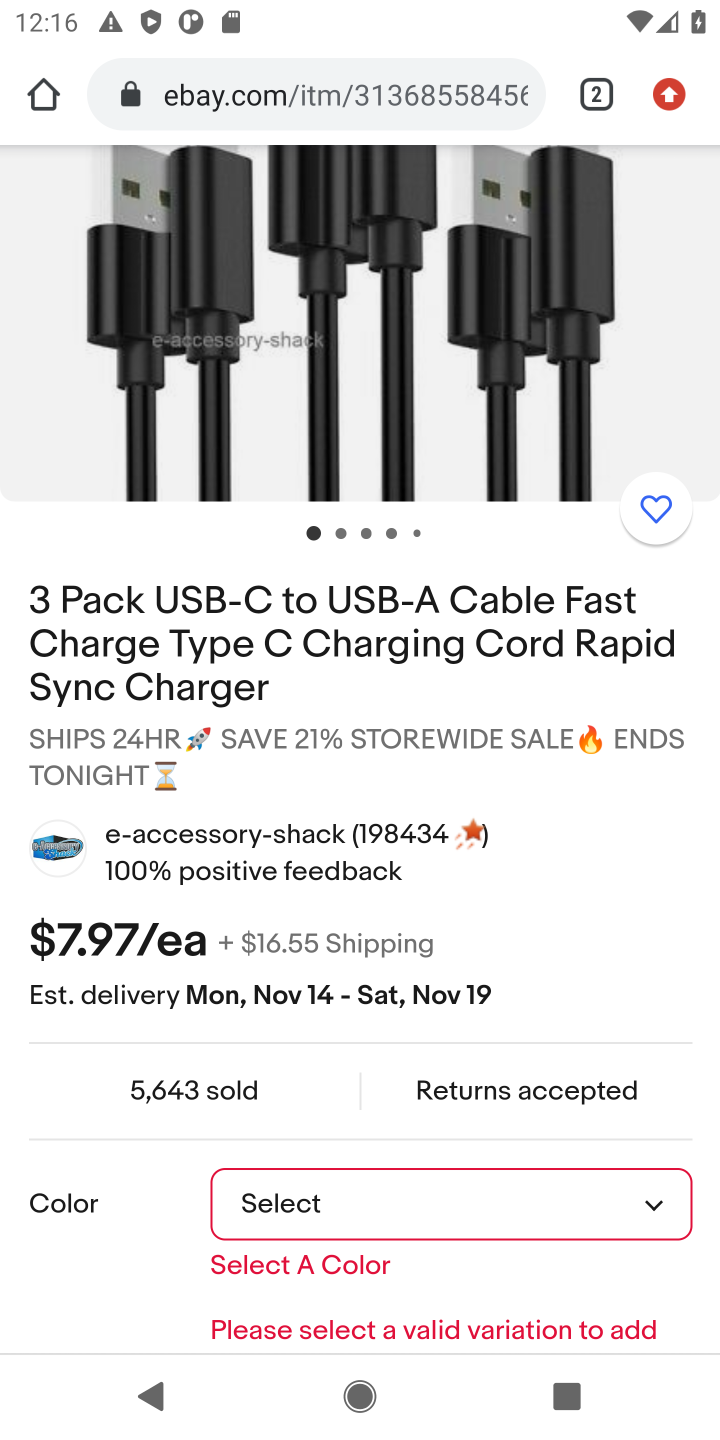
Step 30: click (615, 1206)
Your task to perform on an android device: Add "usb-a" to the cart on ebay.com, then select checkout. Image 31: 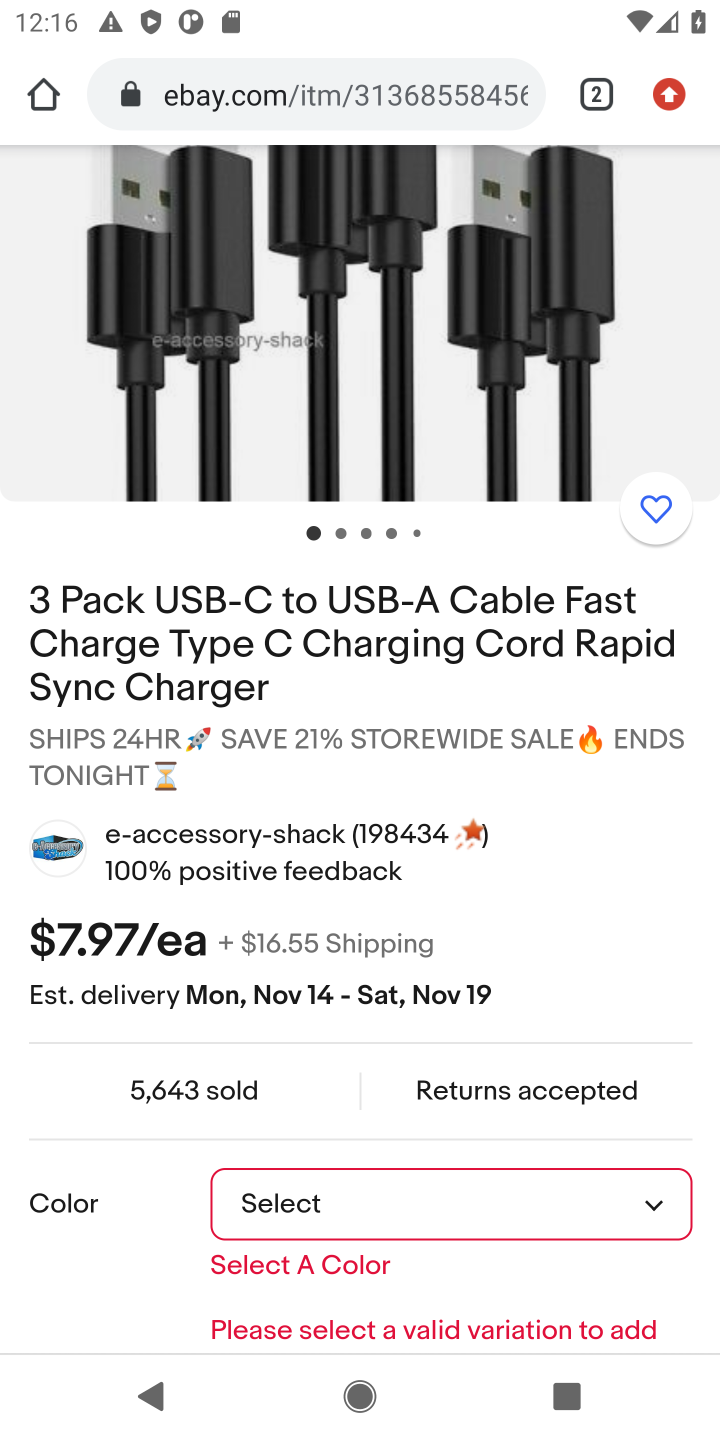
Step 31: drag from (615, 1206) to (618, 531)
Your task to perform on an android device: Add "usb-a" to the cart on ebay.com, then select checkout. Image 32: 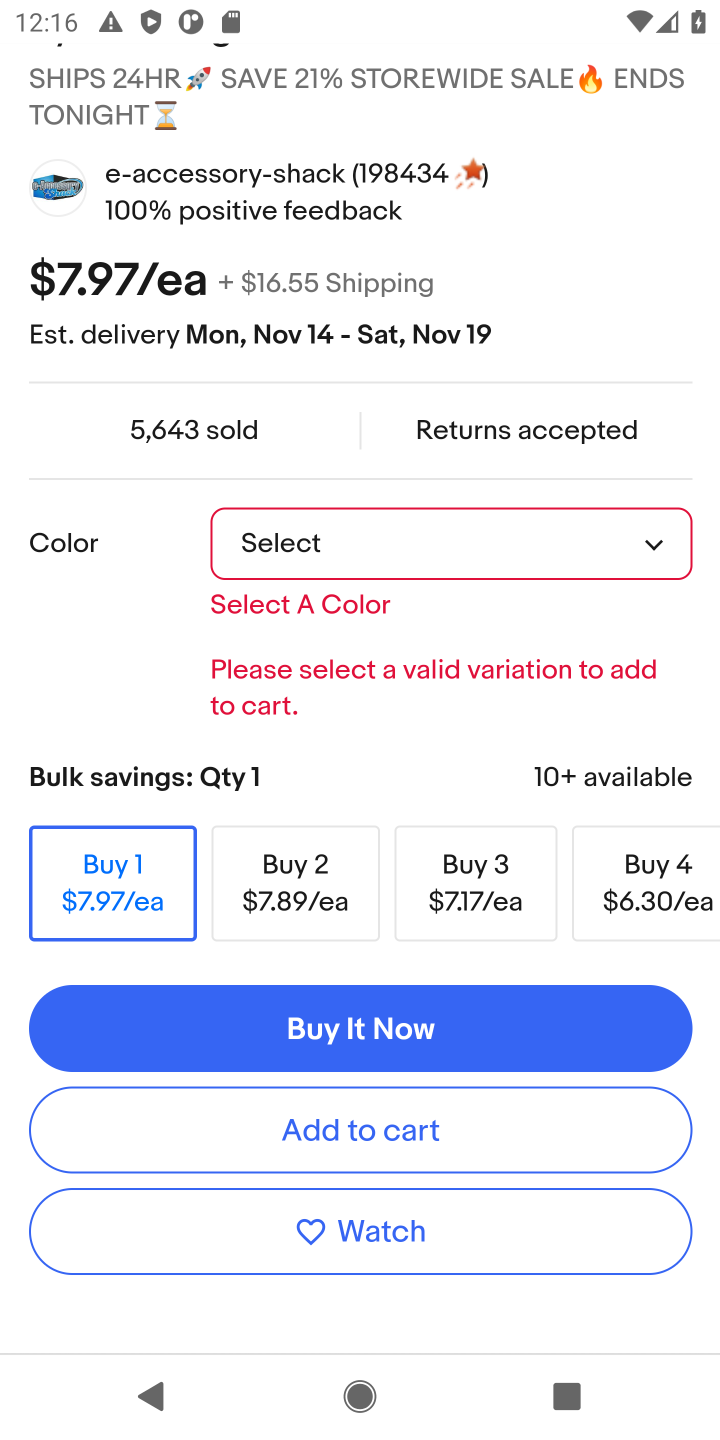
Step 32: click (372, 574)
Your task to perform on an android device: Add "usb-a" to the cart on ebay.com, then select checkout. Image 33: 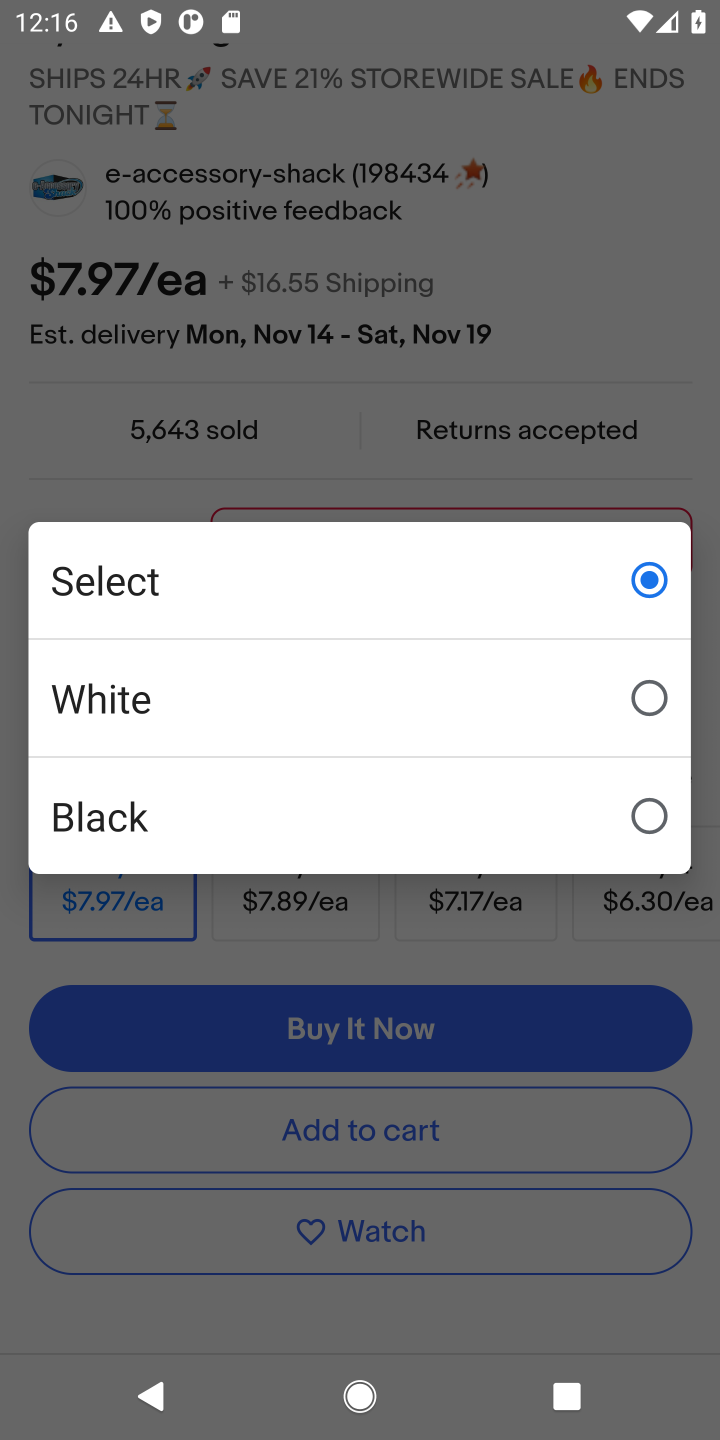
Step 33: click (407, 721)
Your task to perform on an android device: Add "usb-a" to the cart on ebay.com, then select checkout. Image 34: 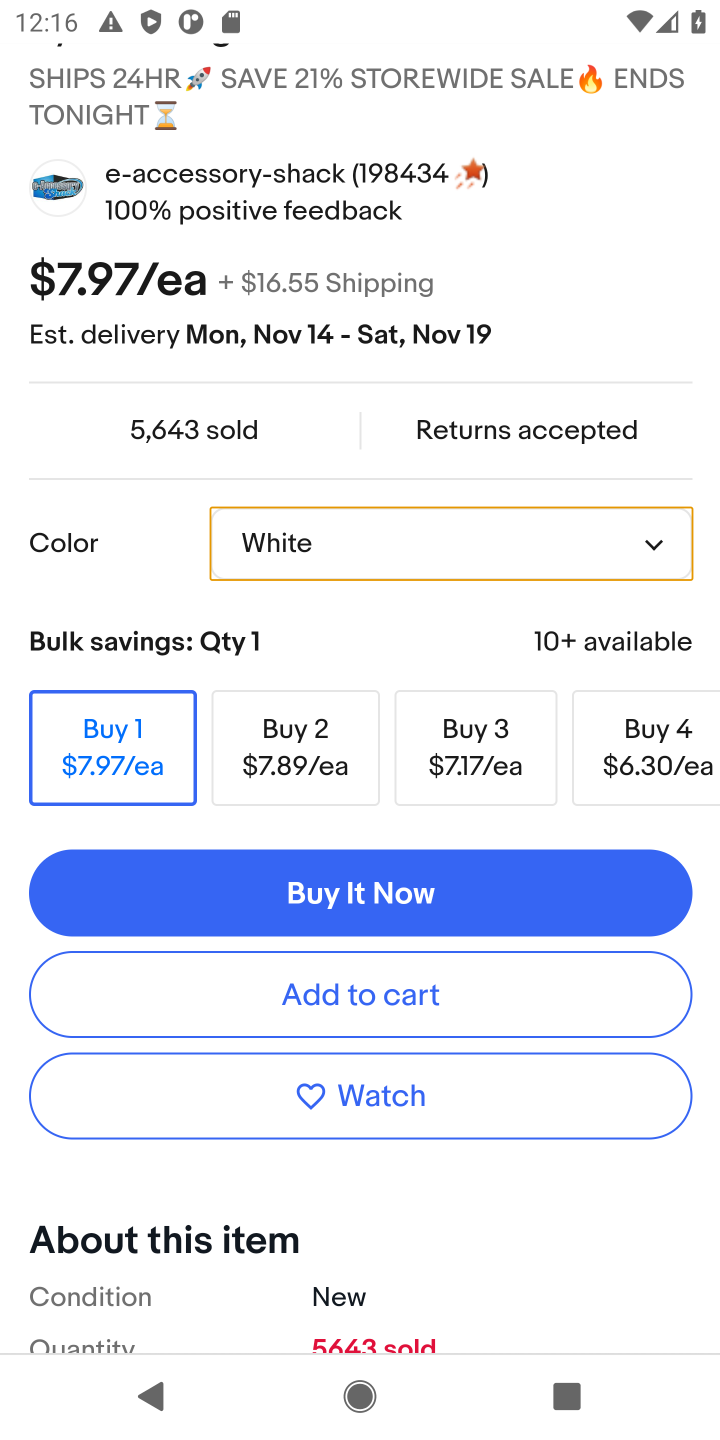
Step 34: click (380, 1006)
Your task to perform on an android device: Add "usb-a" to the cart on ebay.com, then select checkout. Image 35: 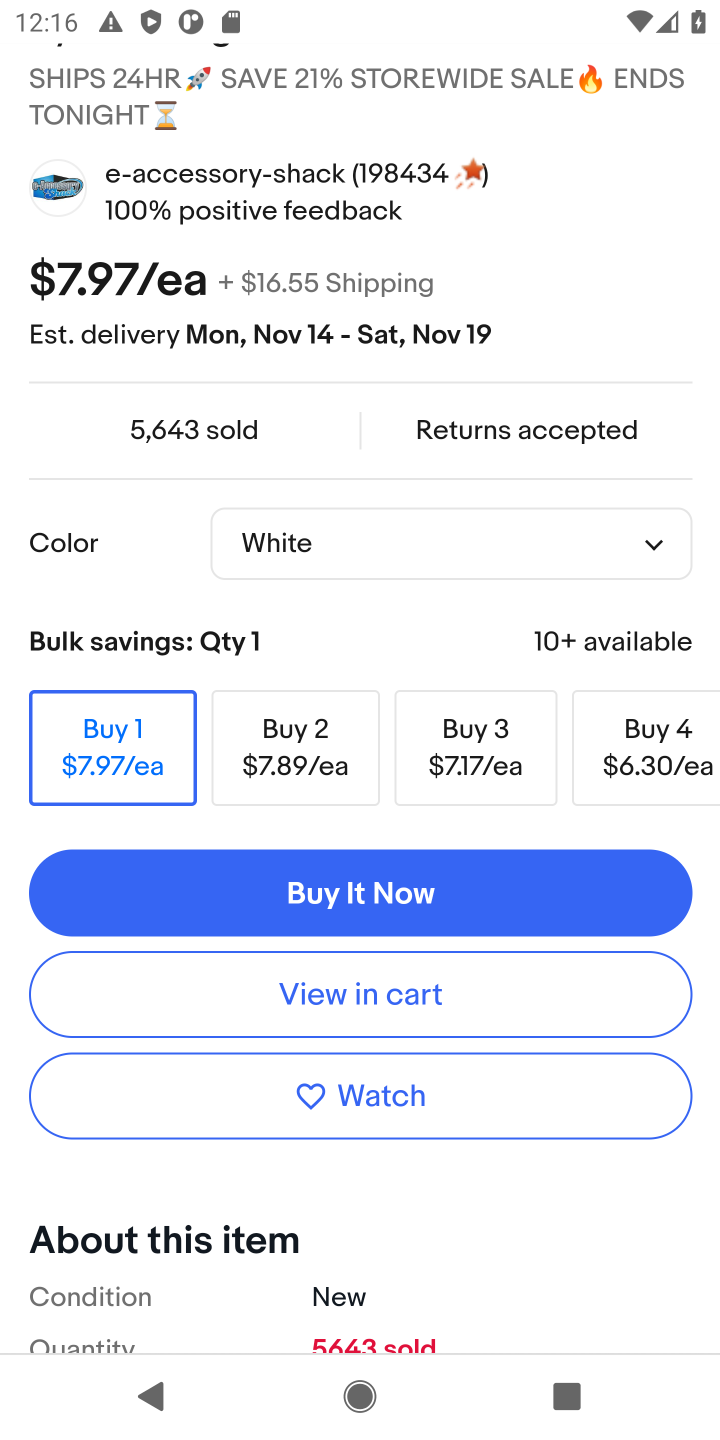
Step 35: click (380, 1006)
Your task to perform on an android device: Add "usb-a" to the cart on ebay.com, then select checkout. Image 36: 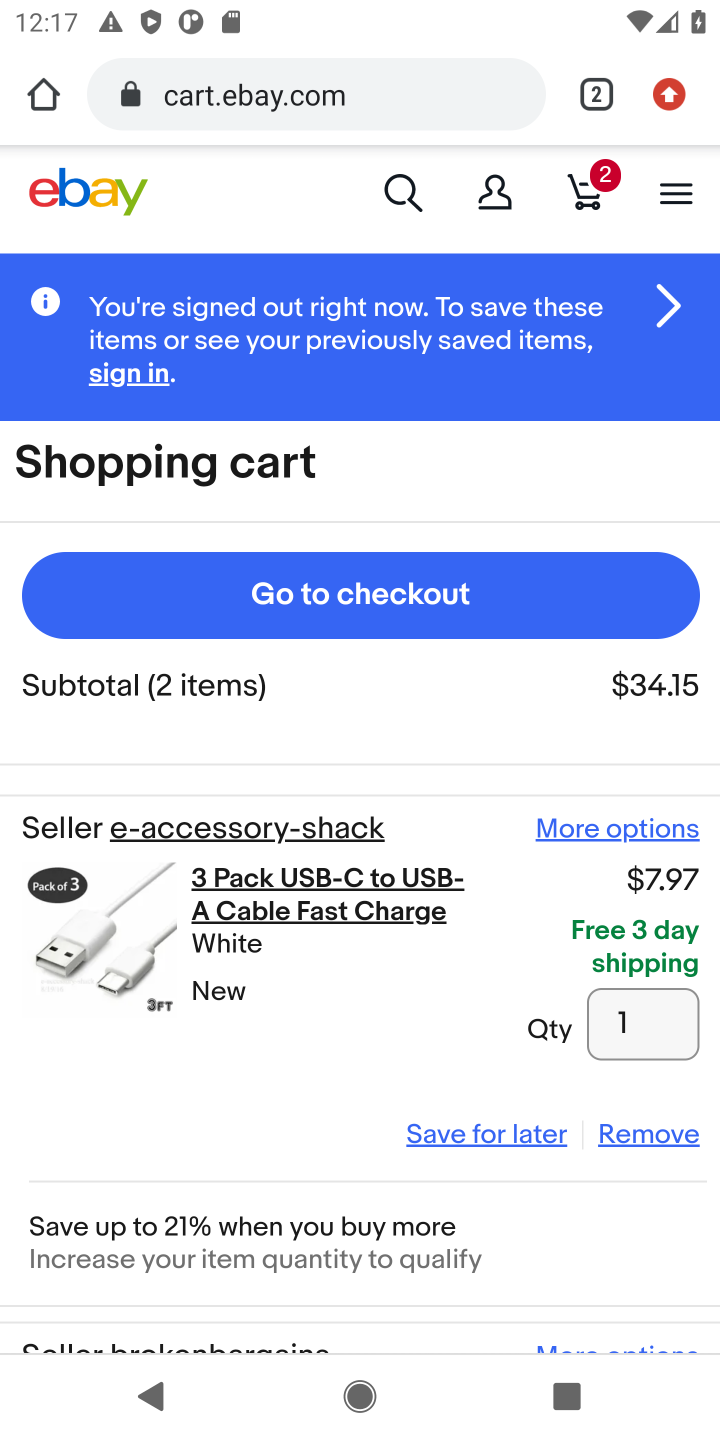
Step 36: click (361, 587)
Your task to perform on an android device: Add "usb-a" to the cart on ebay.com, then select checkout. Image 37: 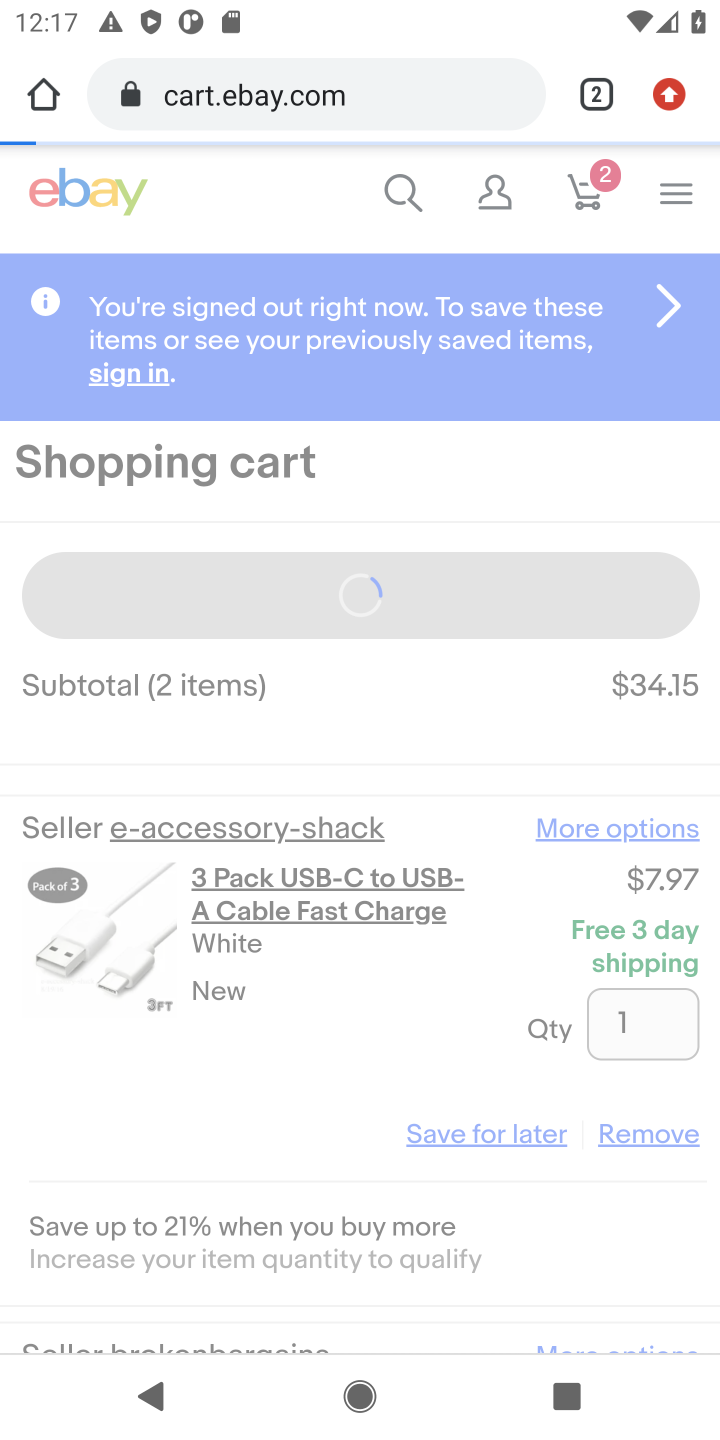
Step 37: task complete